Your task to perform on an android device: Open CNN.com Image 0: 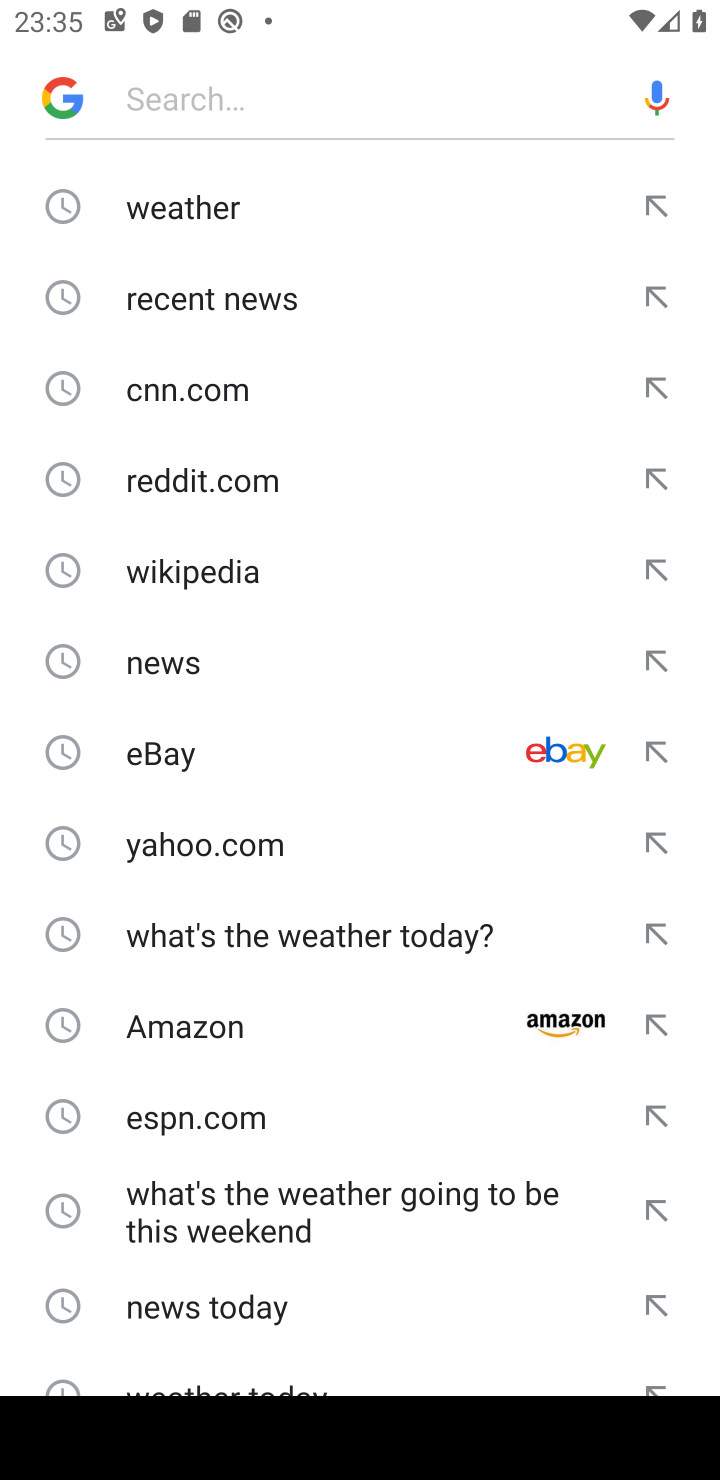
Step 0: press home button
Your task to perform on an android device: Open CNN.com Image 1: 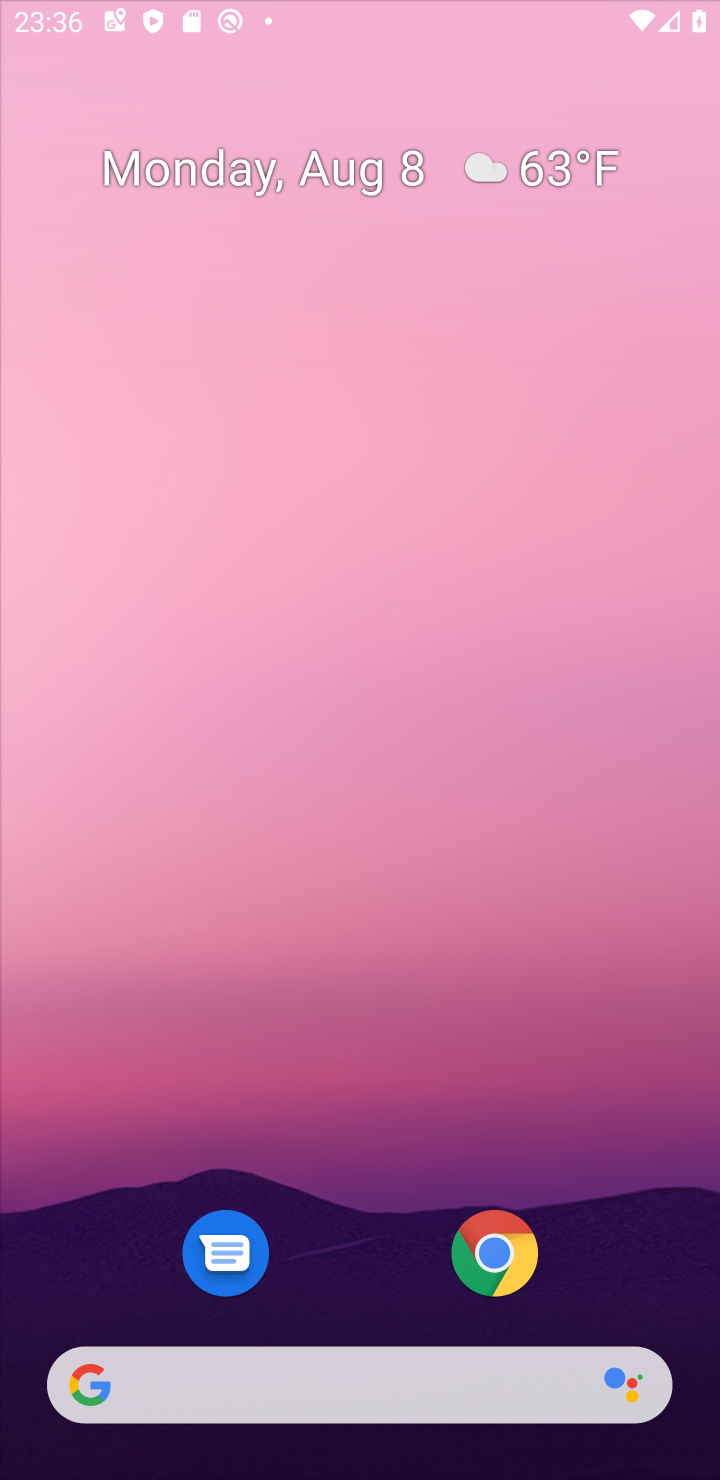
Step 1: drag from (394, 1283) to (376, 185)
Your task to perform on an android device: Open CNN.com Image 2: 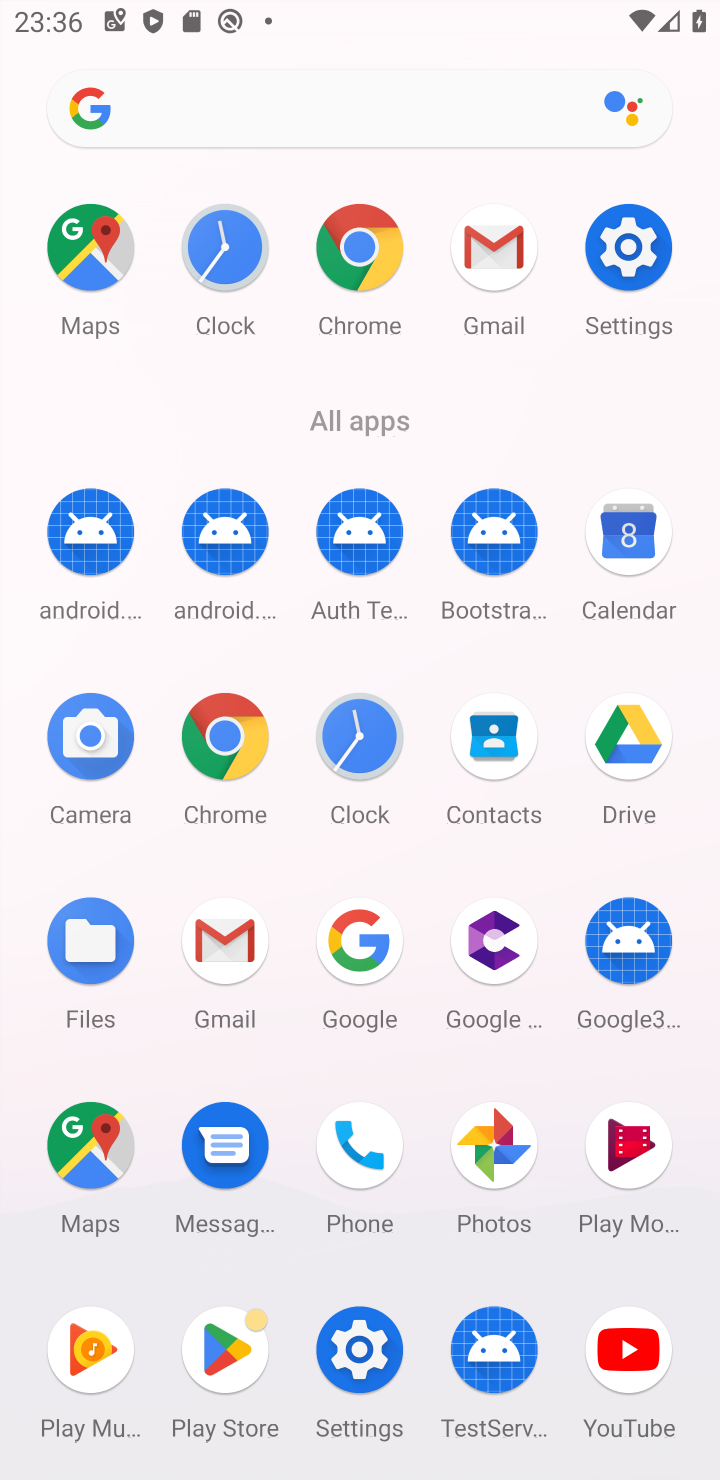
Step 2: click (380, 233)
Your task to perform on an android device: Open CNN.com Image 3: 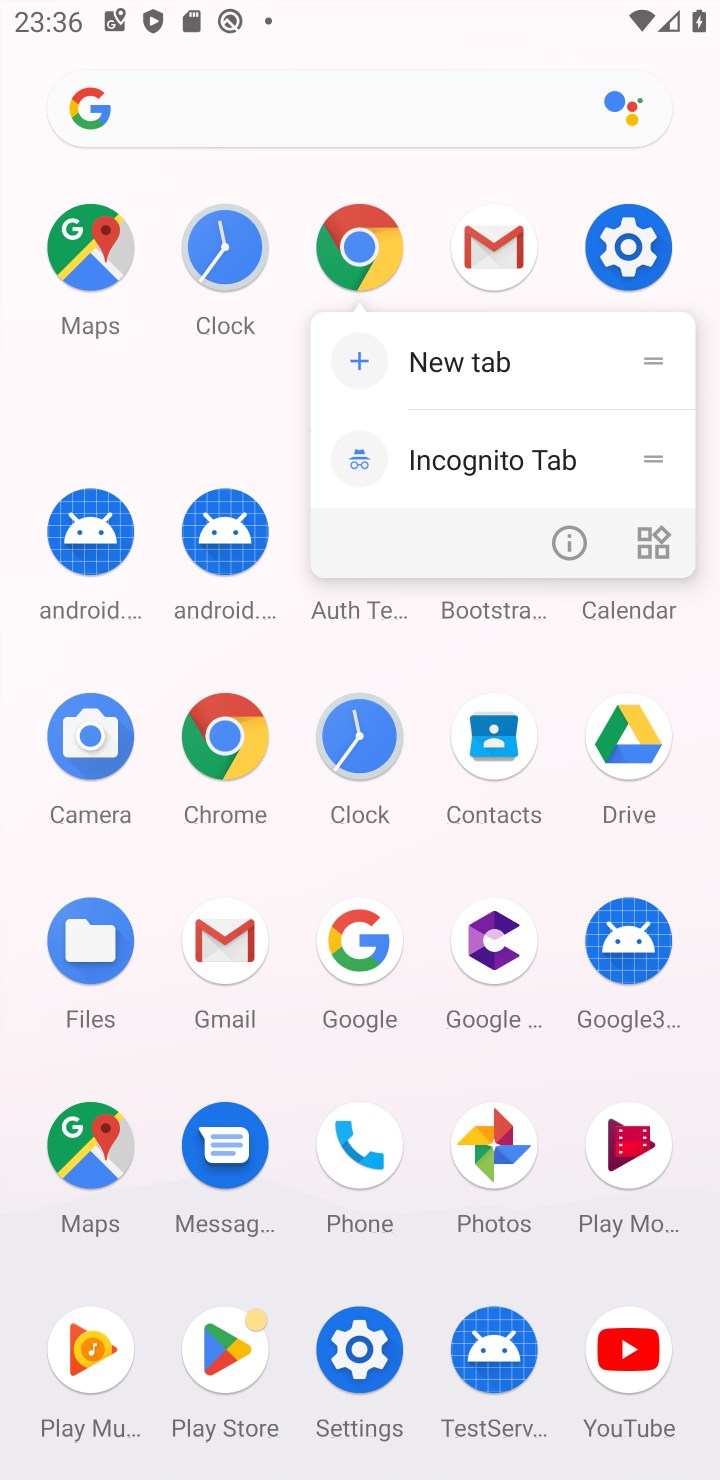
Step 3: click (380, 237)
Your task to perform on an android device: Open CNN.com Image 4: 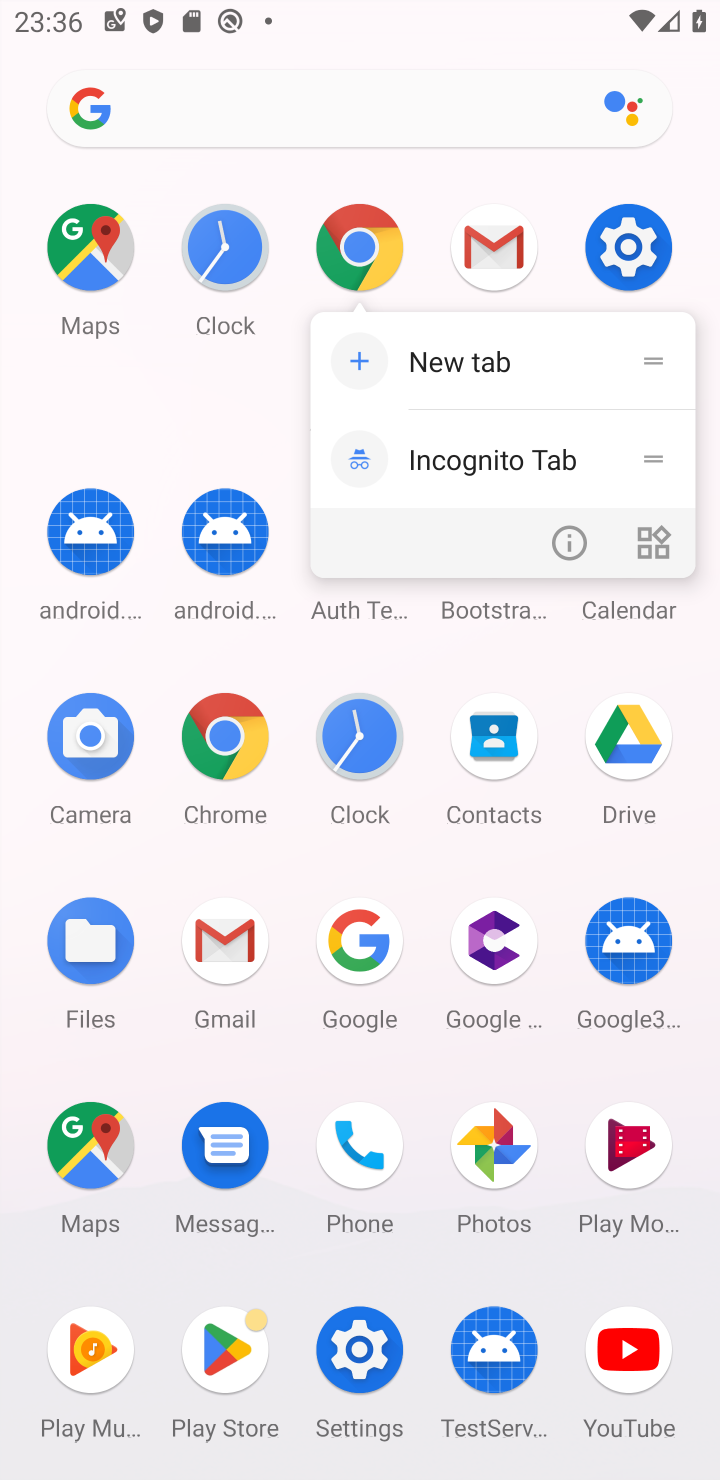
Step 4: click (357, 237)
Your task to perform on an android device: Open CNN.com Image 5: 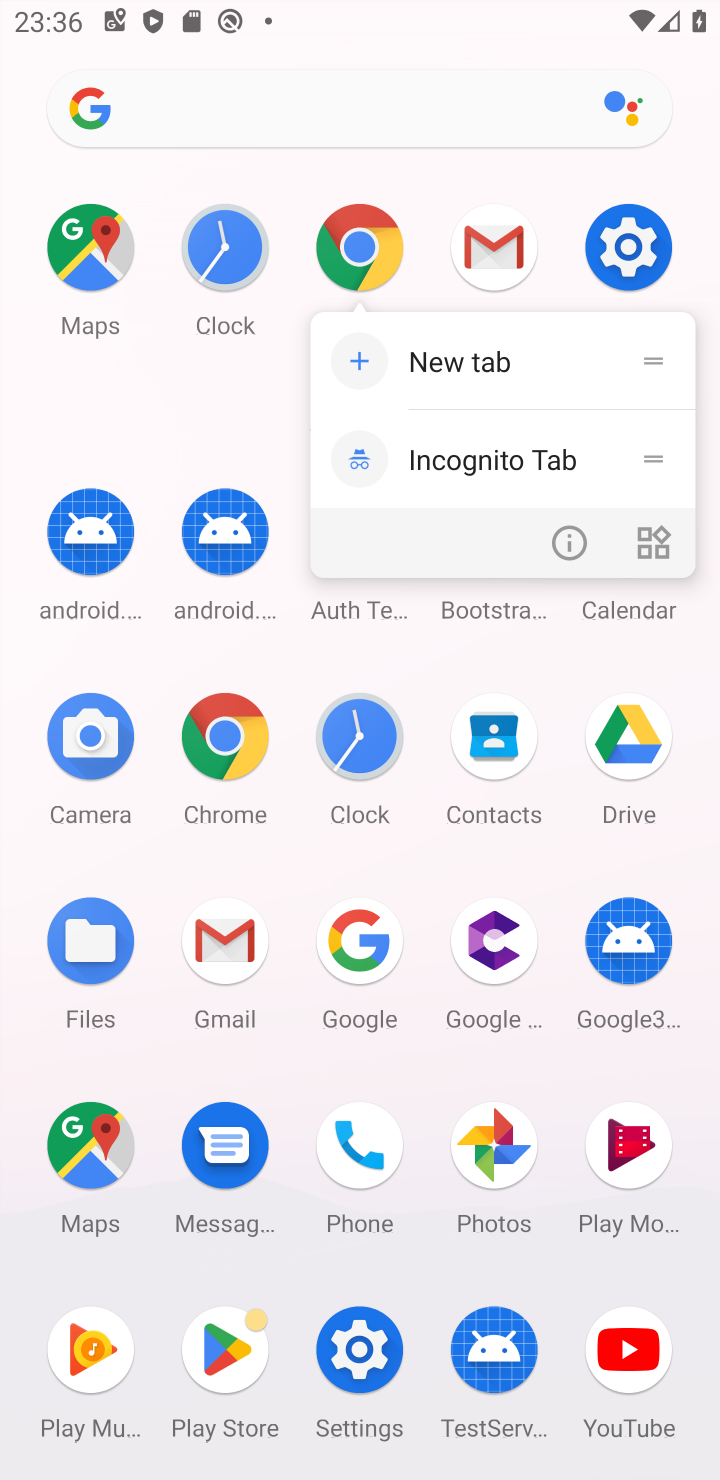
Step 5: click (357, 237)
Your task to perform on an android device: Open CNN.com Image 6: 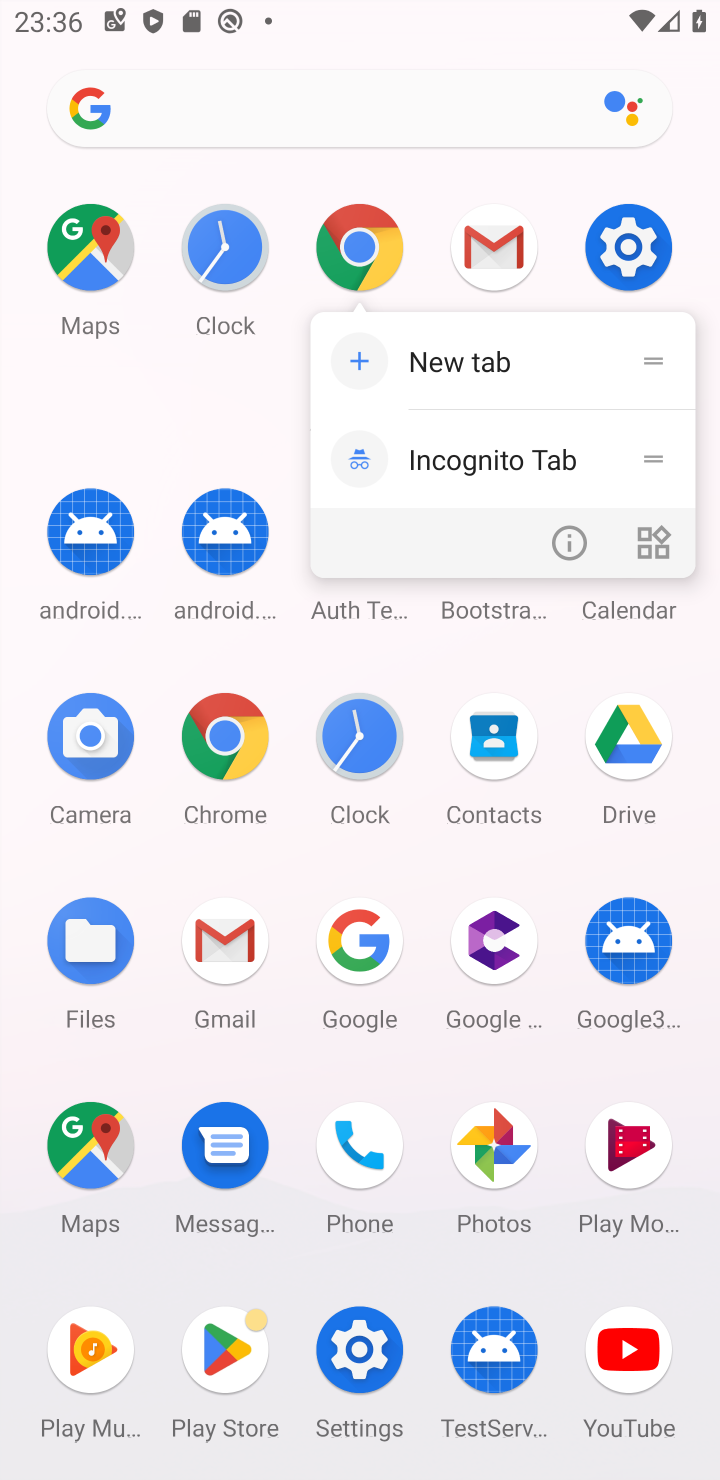
Step 6: click (357, 238)
Your task to perform on an android device: Open CNN.com Image 7: 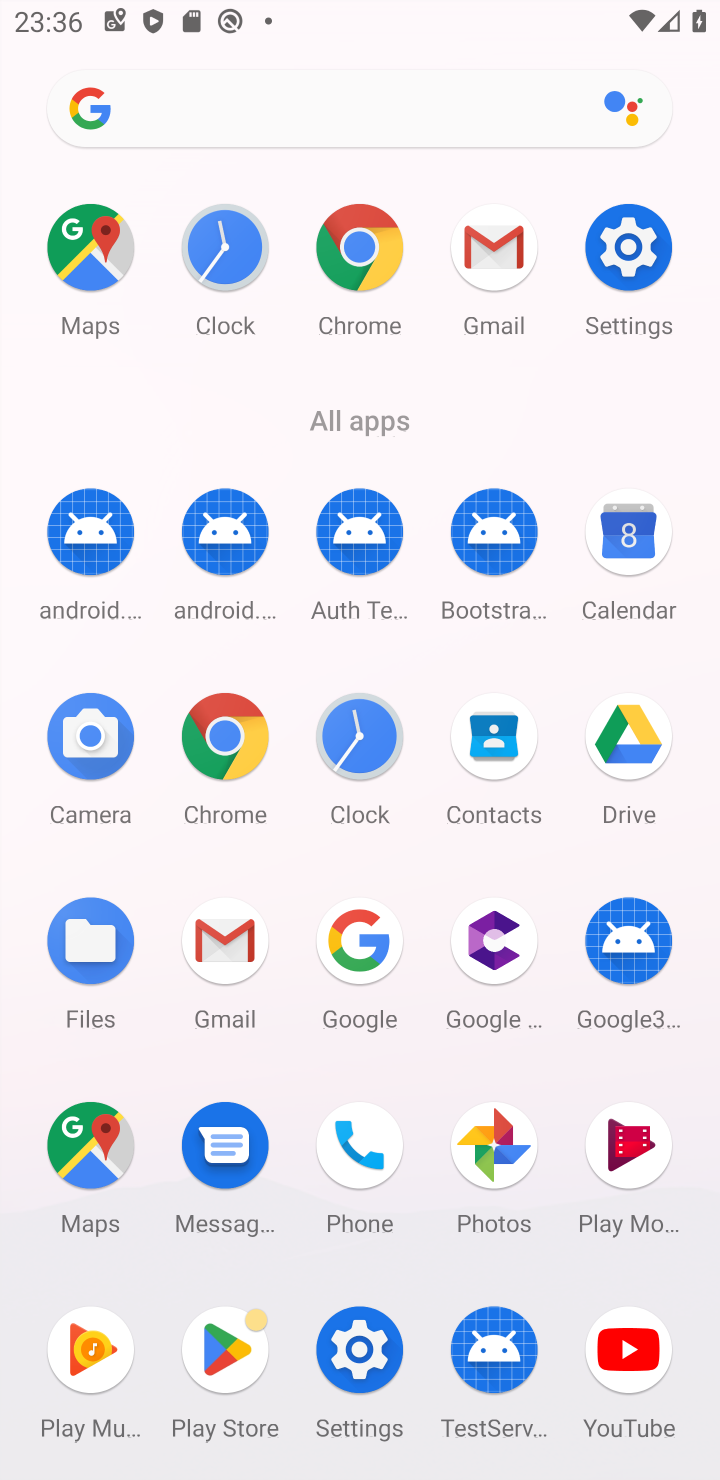
Step 7: click (365, 264)
Your task to perform on an android device: Open CNN.com Image 8: 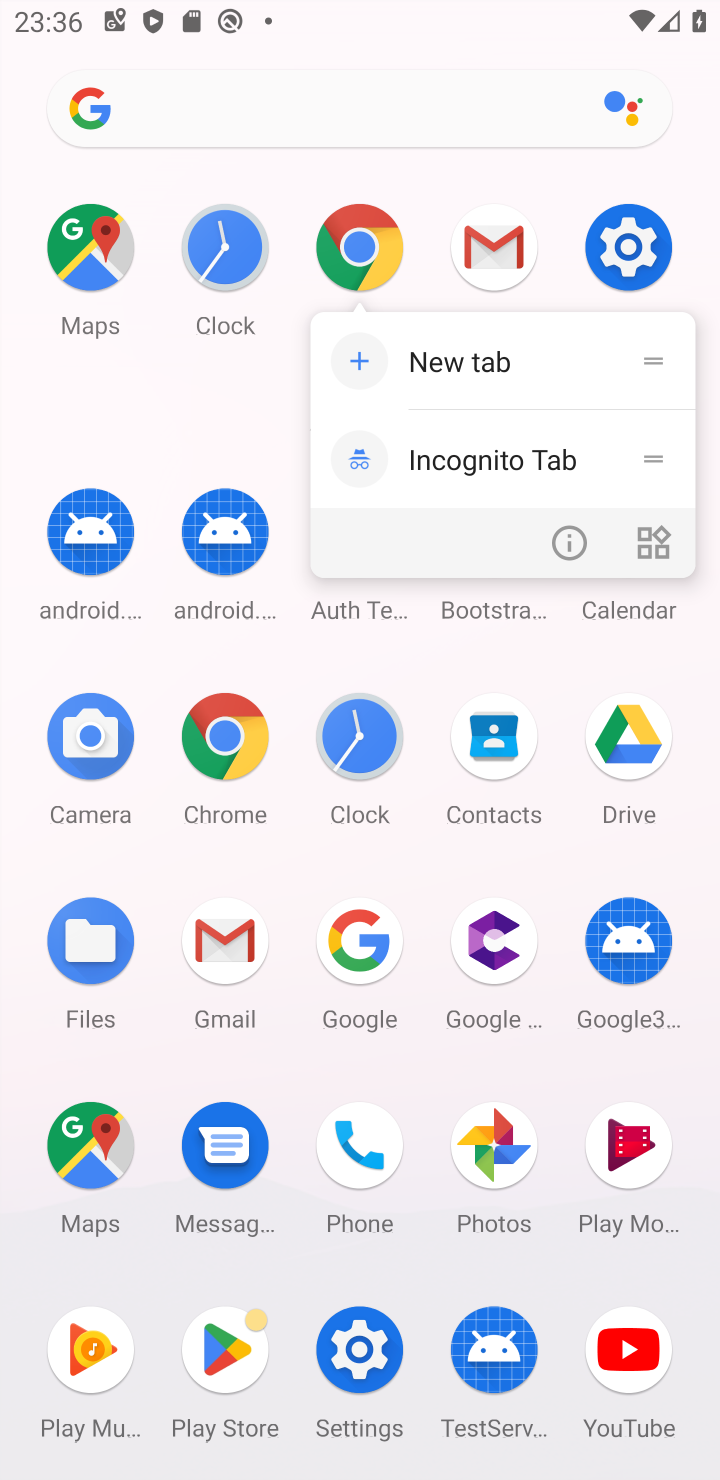
Step 8: click (365, 264)
Your task to perform on an android device: Open CNN.com Image 9: 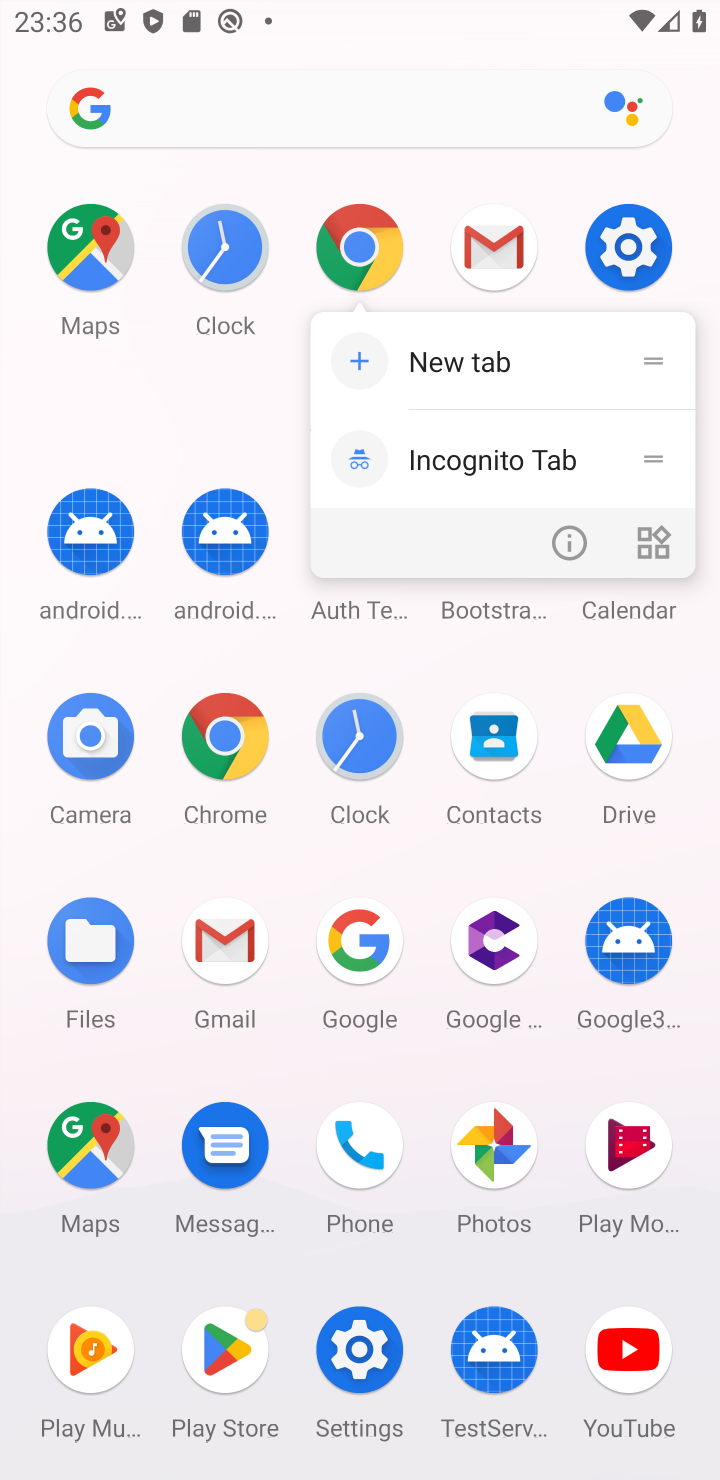
Step 9: click (365, 264)
Your task to perform on an android device: Open CNN.com Image 10: 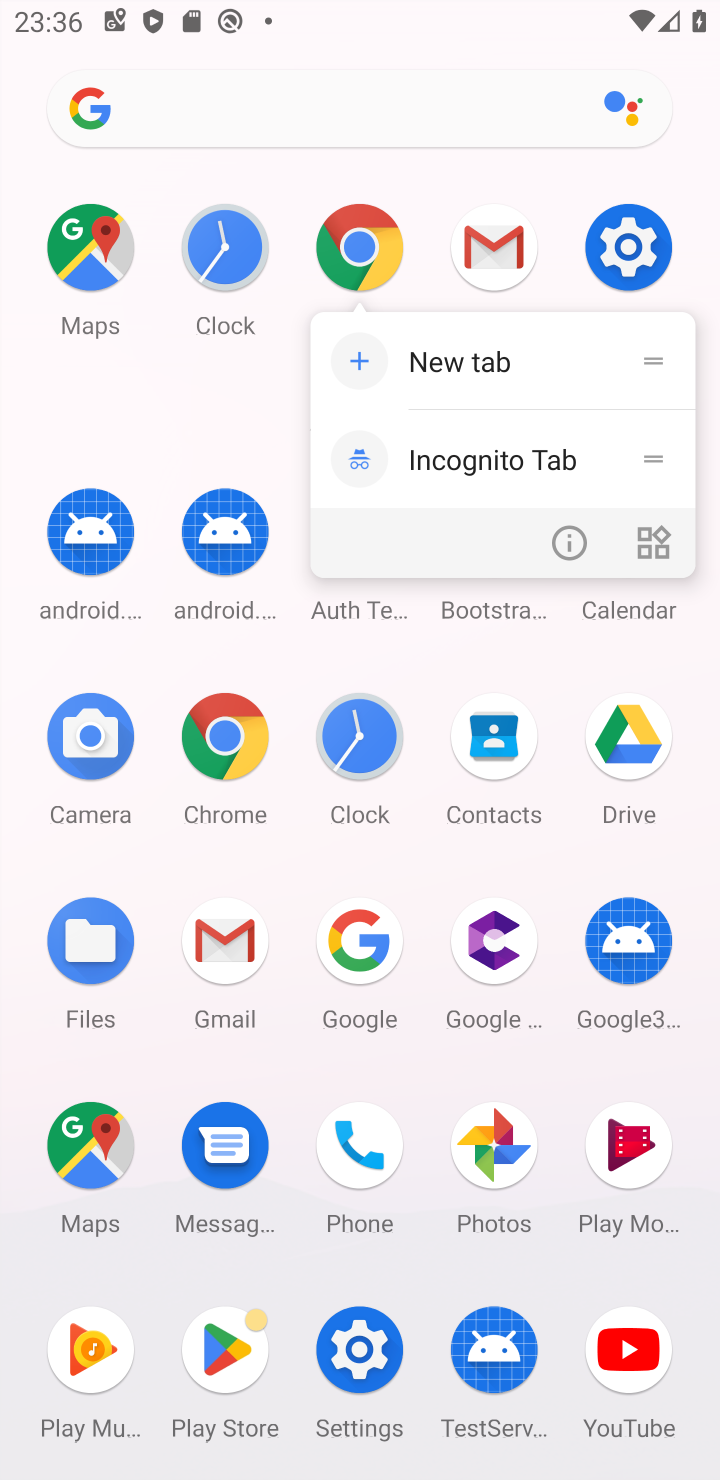
Step 10: click (225, 749)
Your task to perform on an android device: Open CNN.com Image 11: 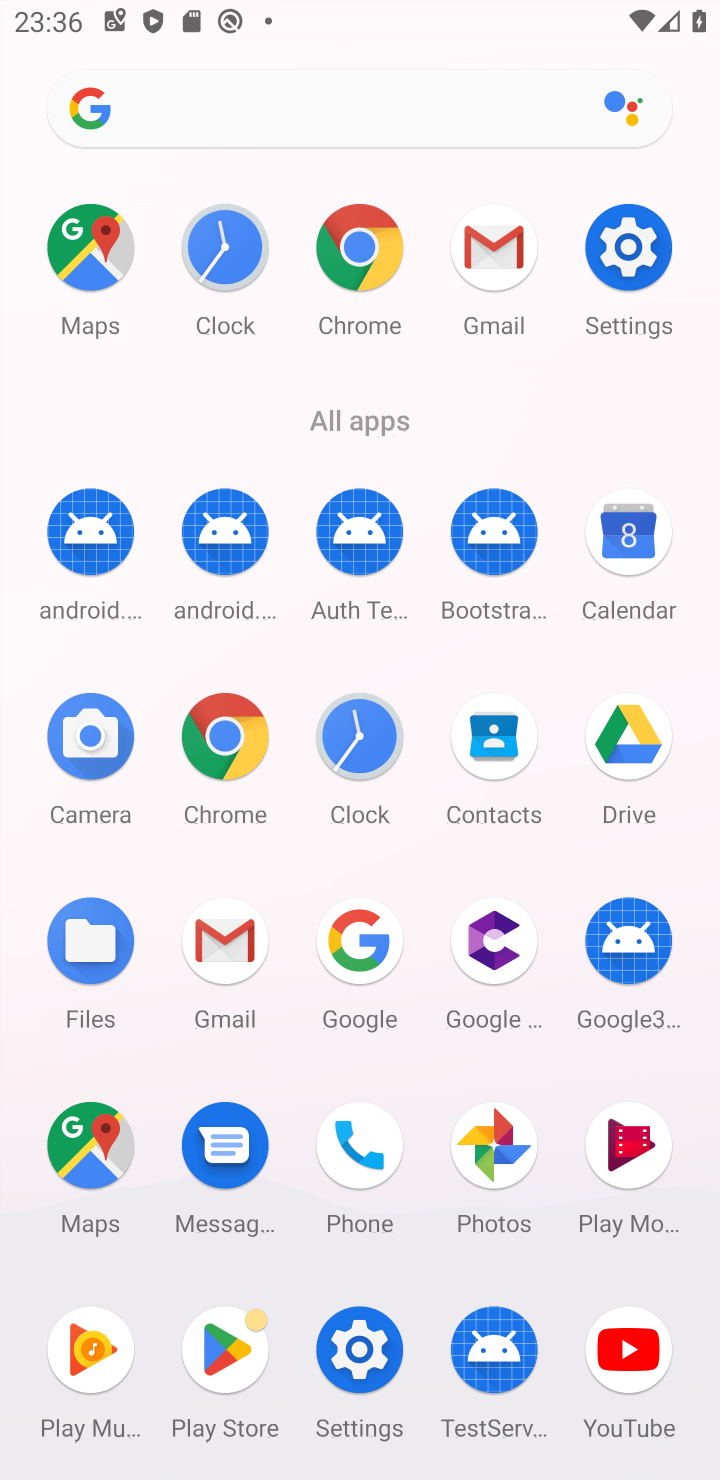
Step 11: click (247, 730)
Your task to perform on an android device: Open CNN.com Image 12: 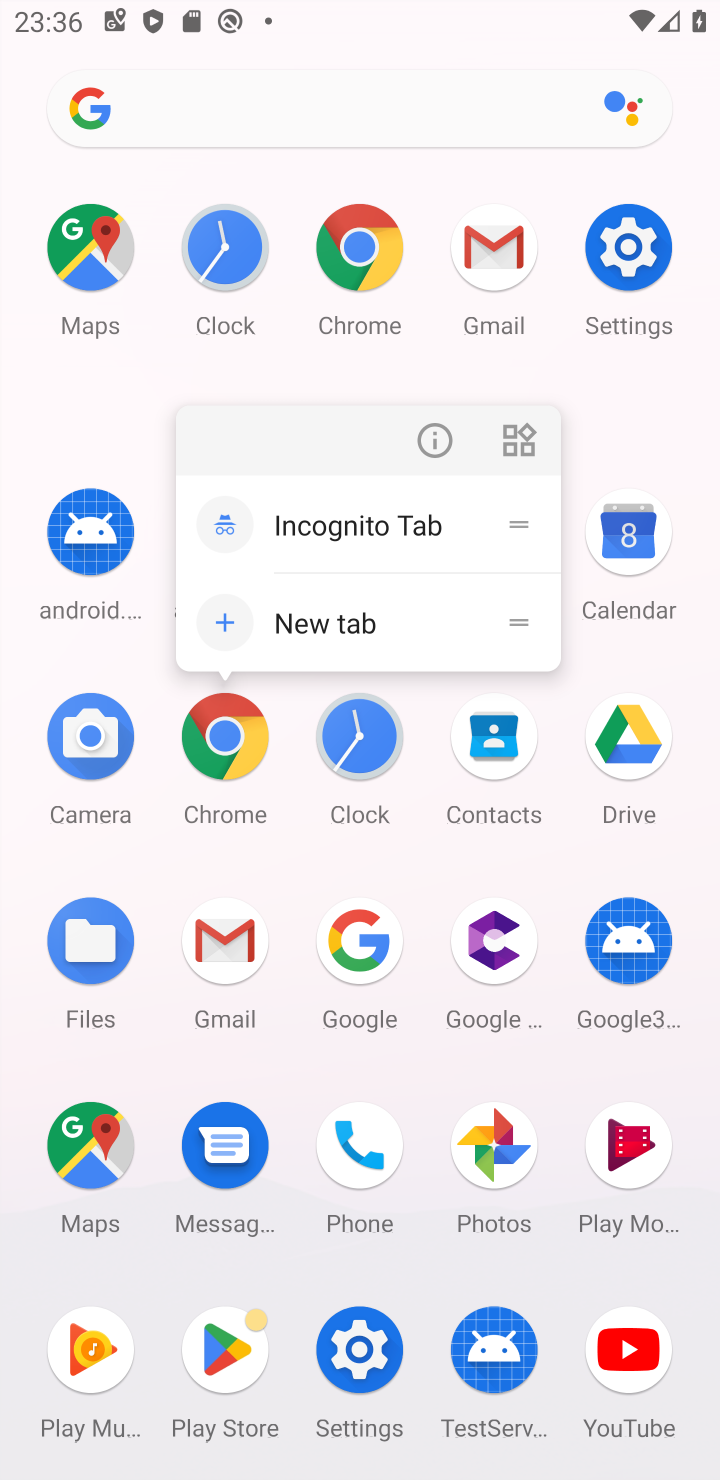
Step 12: click (247, 730)
Your task to perform on an android device: Open CNN.com Image 13: 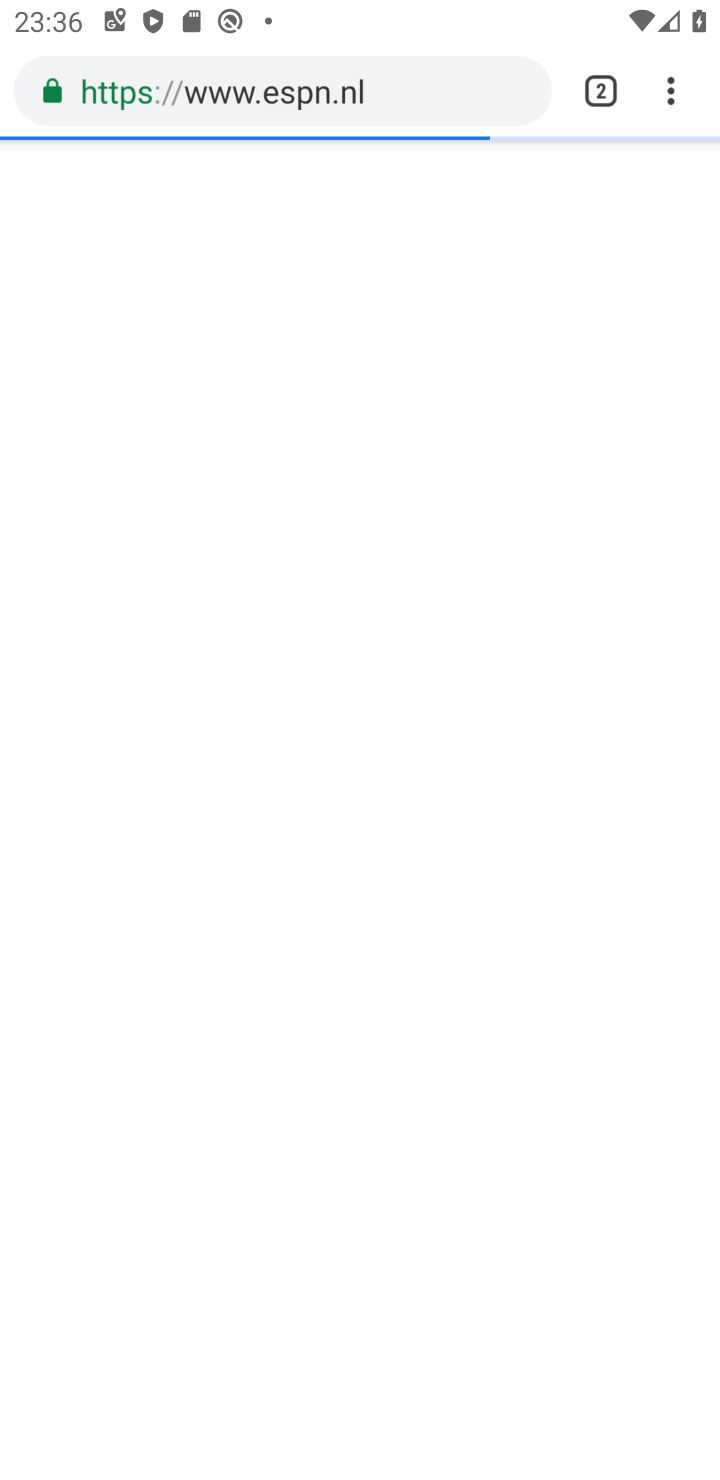
Step 13: click (247, 730)
Your task to perform on an android device: Open CNN.com Image 14: 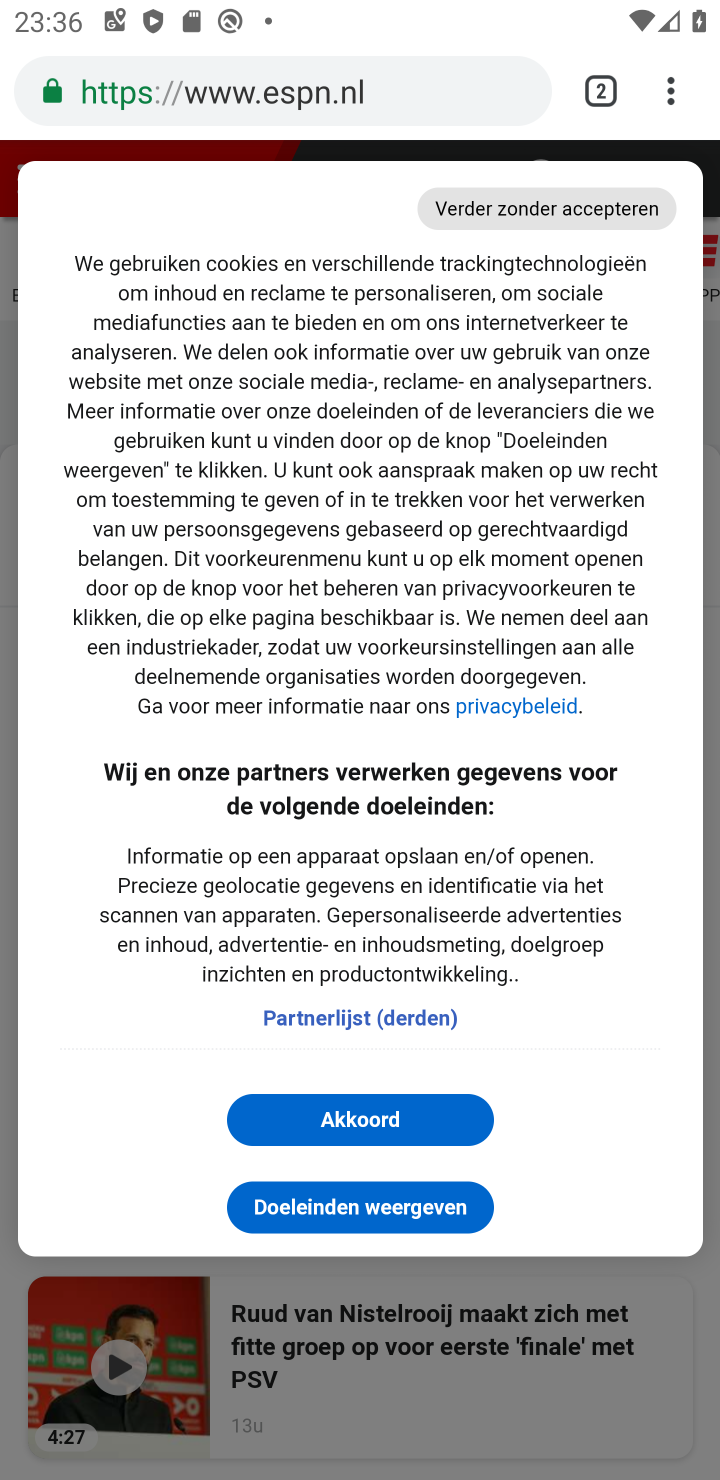
Step 14: click (418, 1095)
Your task to perform on an android device: Open CNN.com Image 15: 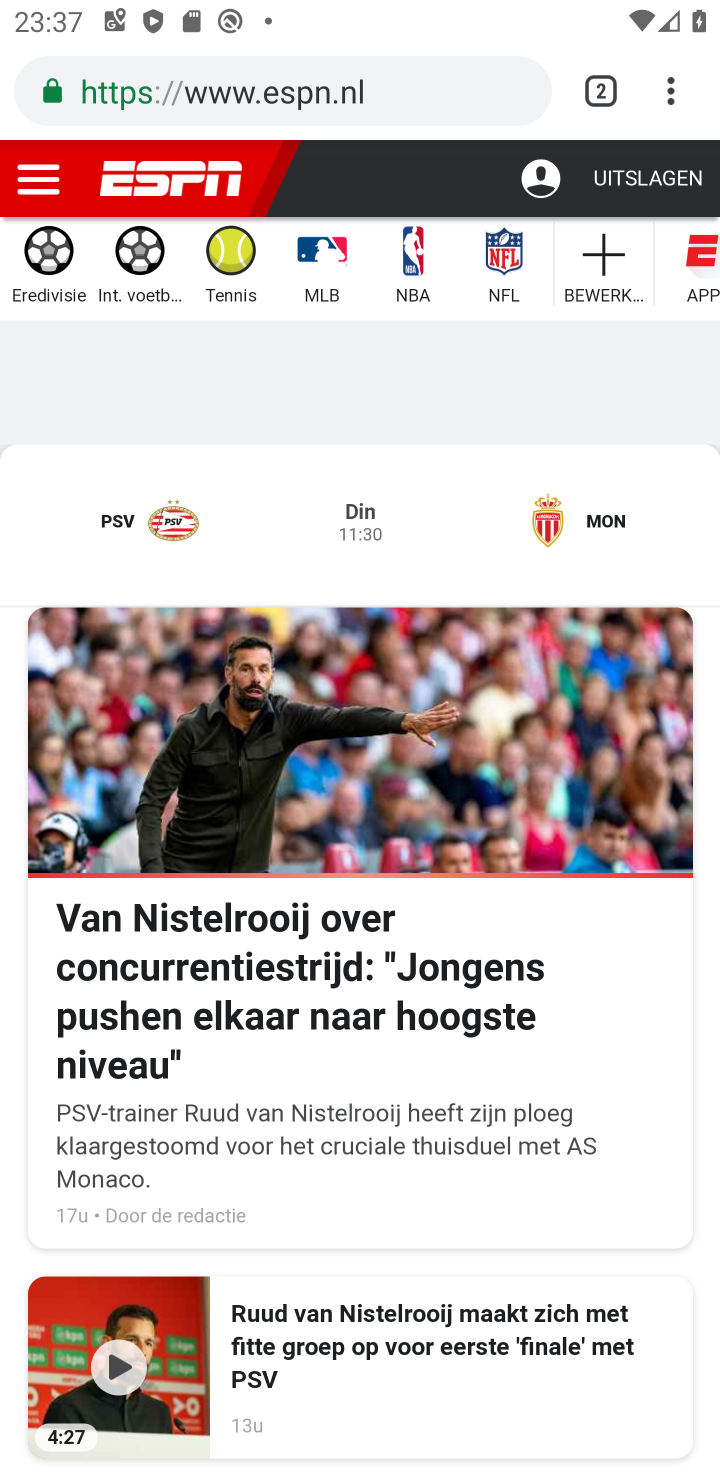
Step 15: click (691, 94)
Your task to perform on an android device: Open CNN.com Image 16: 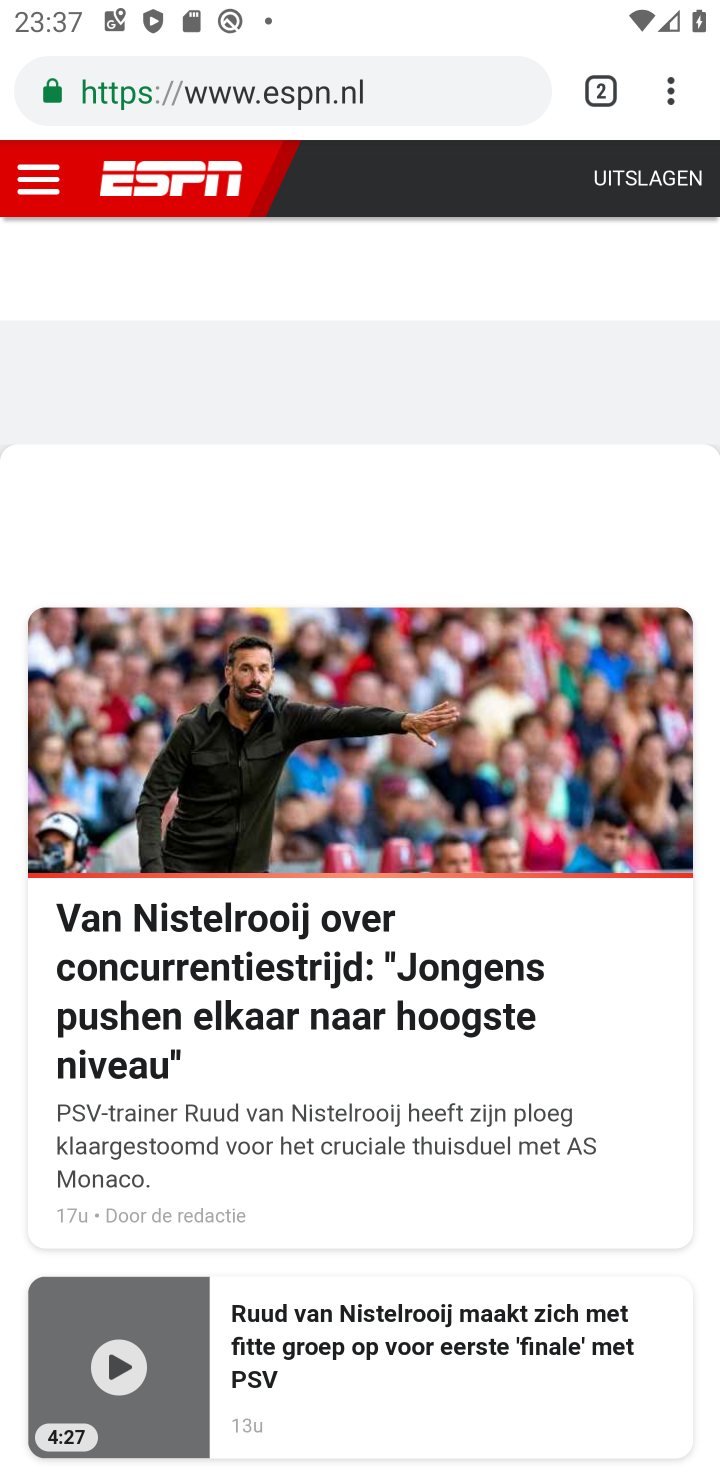
Step 16: click (673, 91)
Your task to perform on an android device: Open CNN.com Image 17: 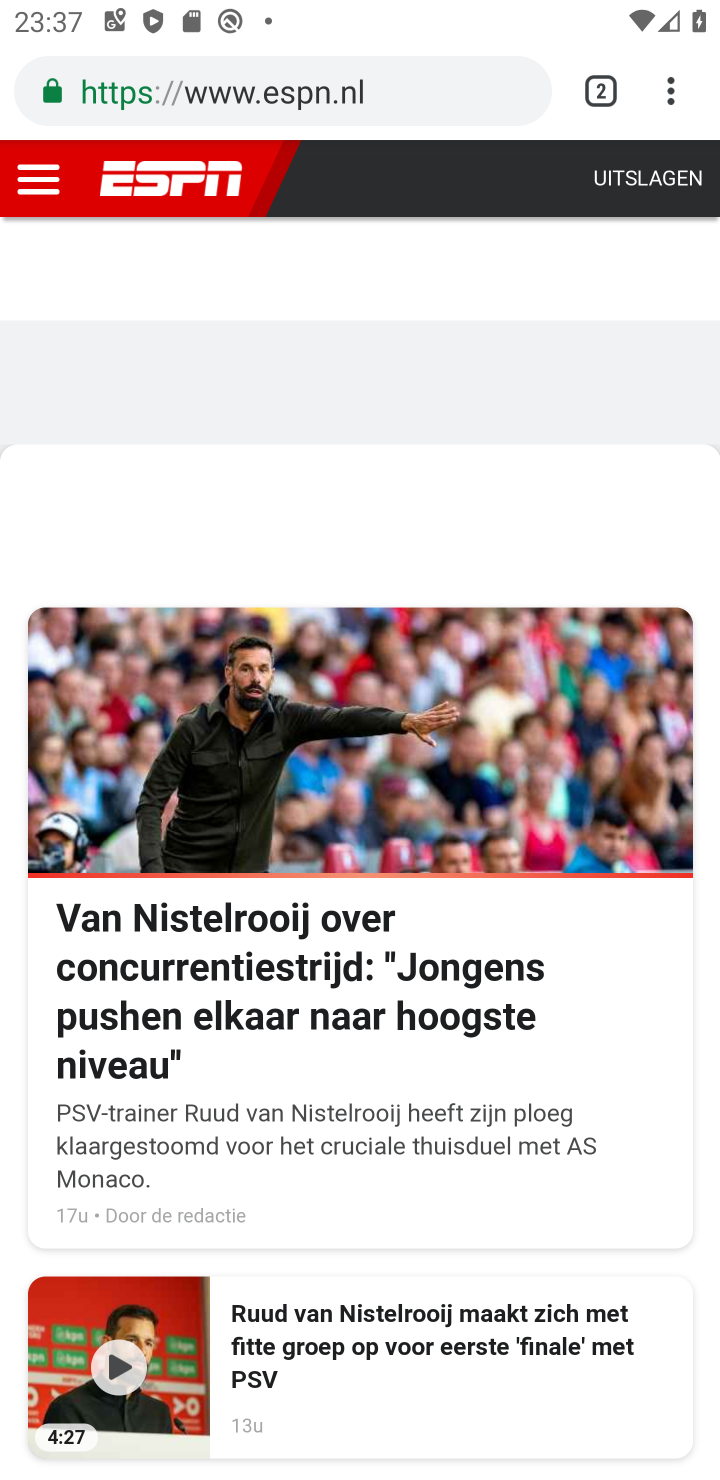
Step 17: click (691, 56)
Your task to perform on an android device: Open CNN.com Image 18: 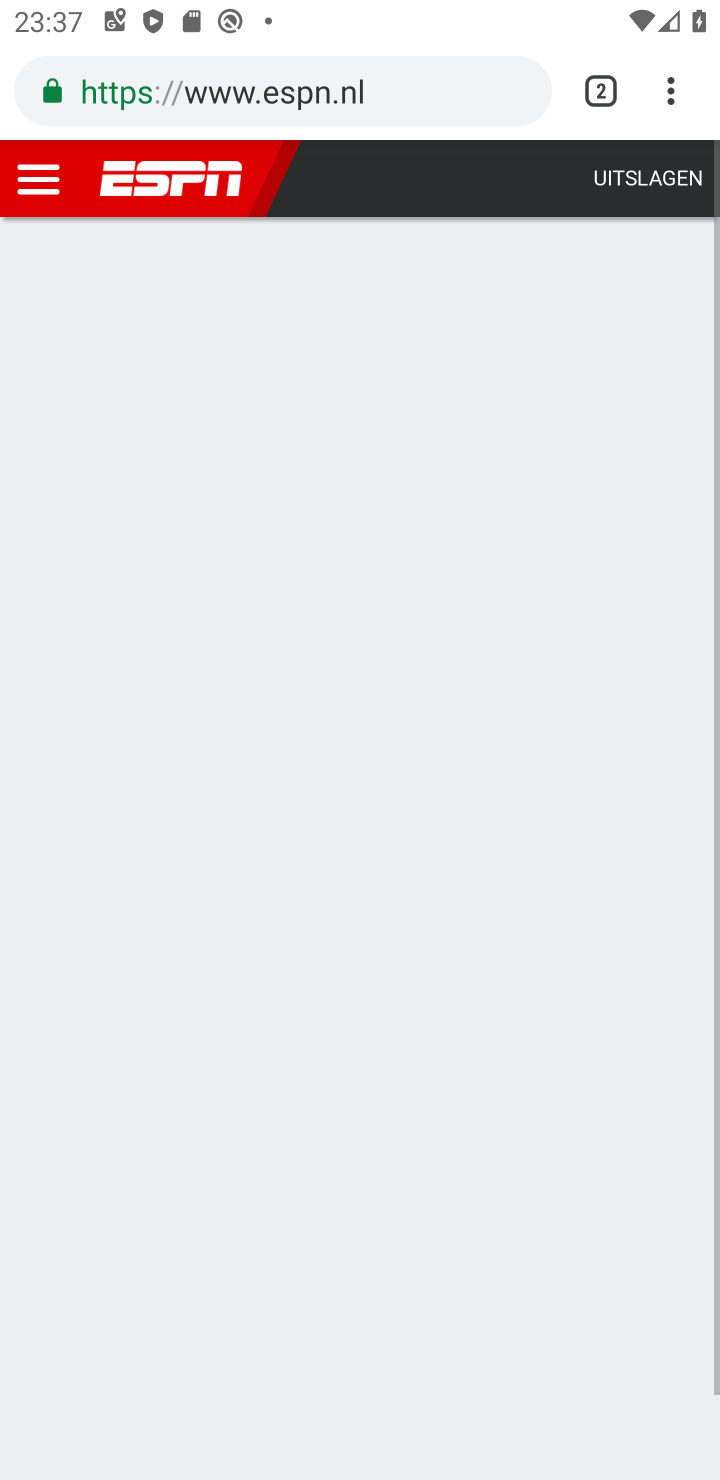
Step 18: click (667, 87)
Your task to perform on an android device: Open CNN.com Image 19: 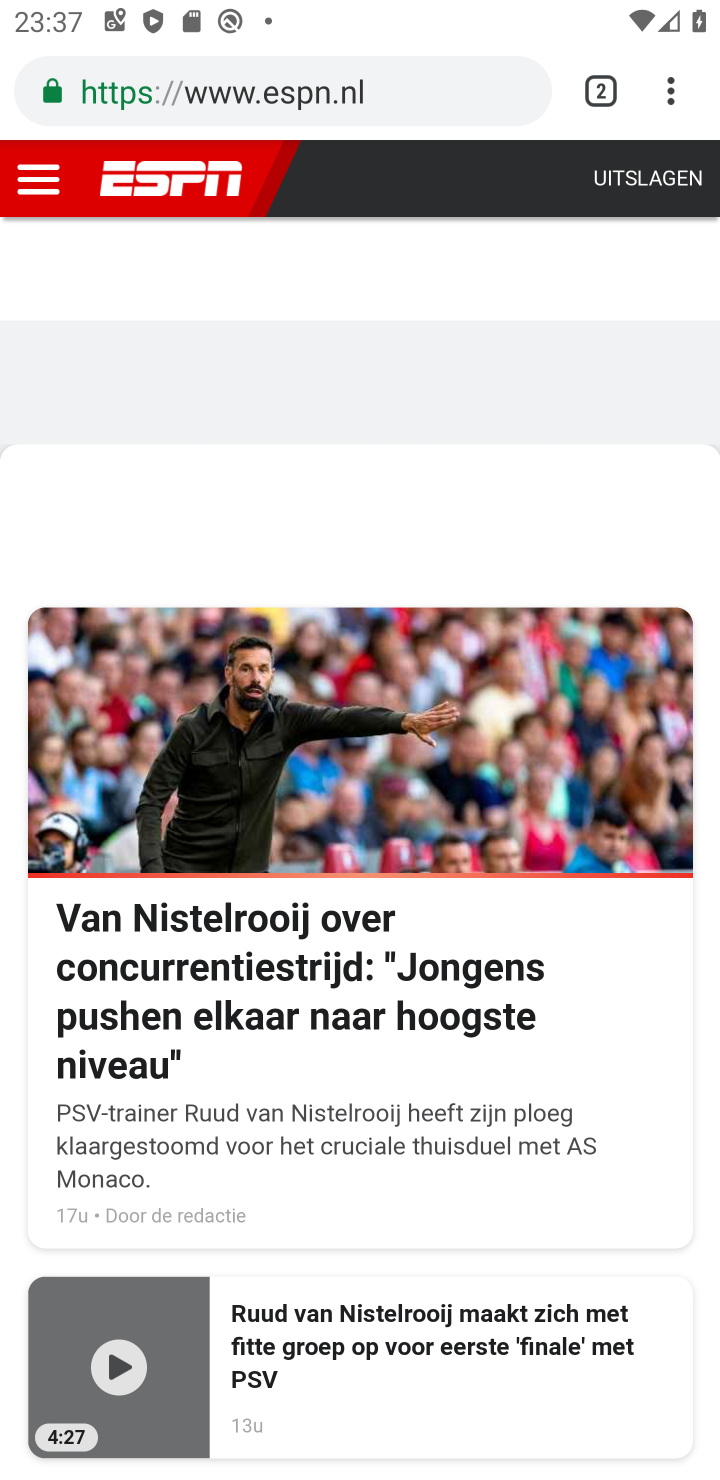
Step 19: click (667, 87)
Your task to perform on an android device: Open CNN.com Image 20: 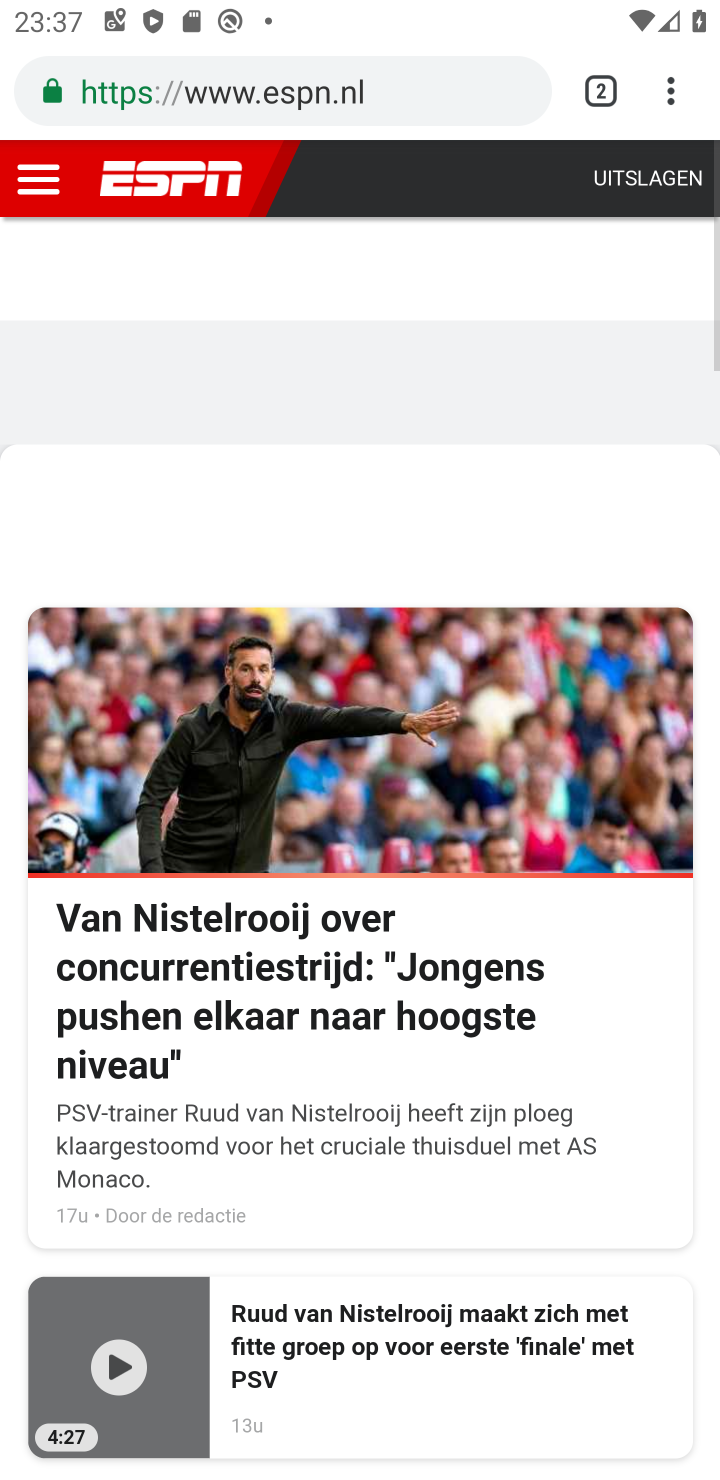
Step 20: click (657, 93)
Your task to perform on an android device: Open CNN.com Image 21: 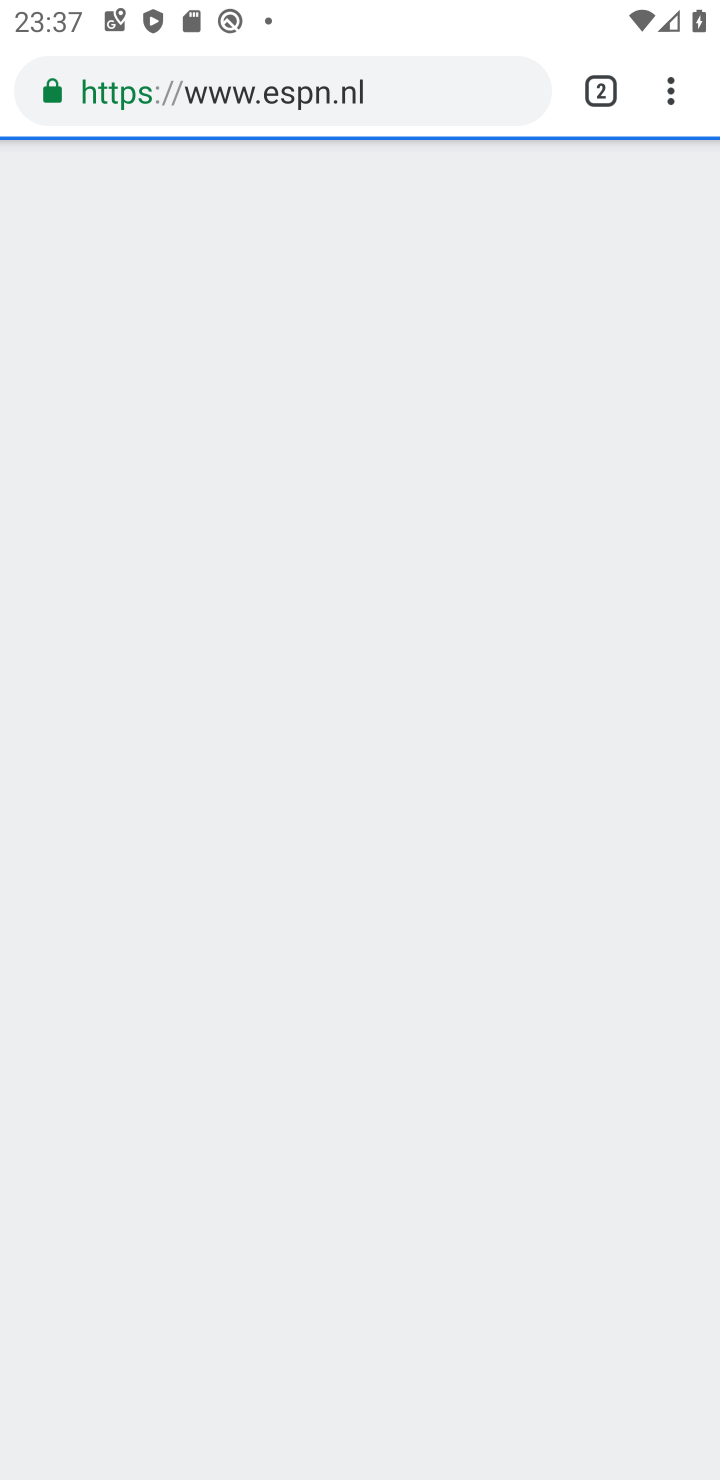
Step 21: click (471, 193)
Your task to perform on an android device: Open CNN.com Image 22: 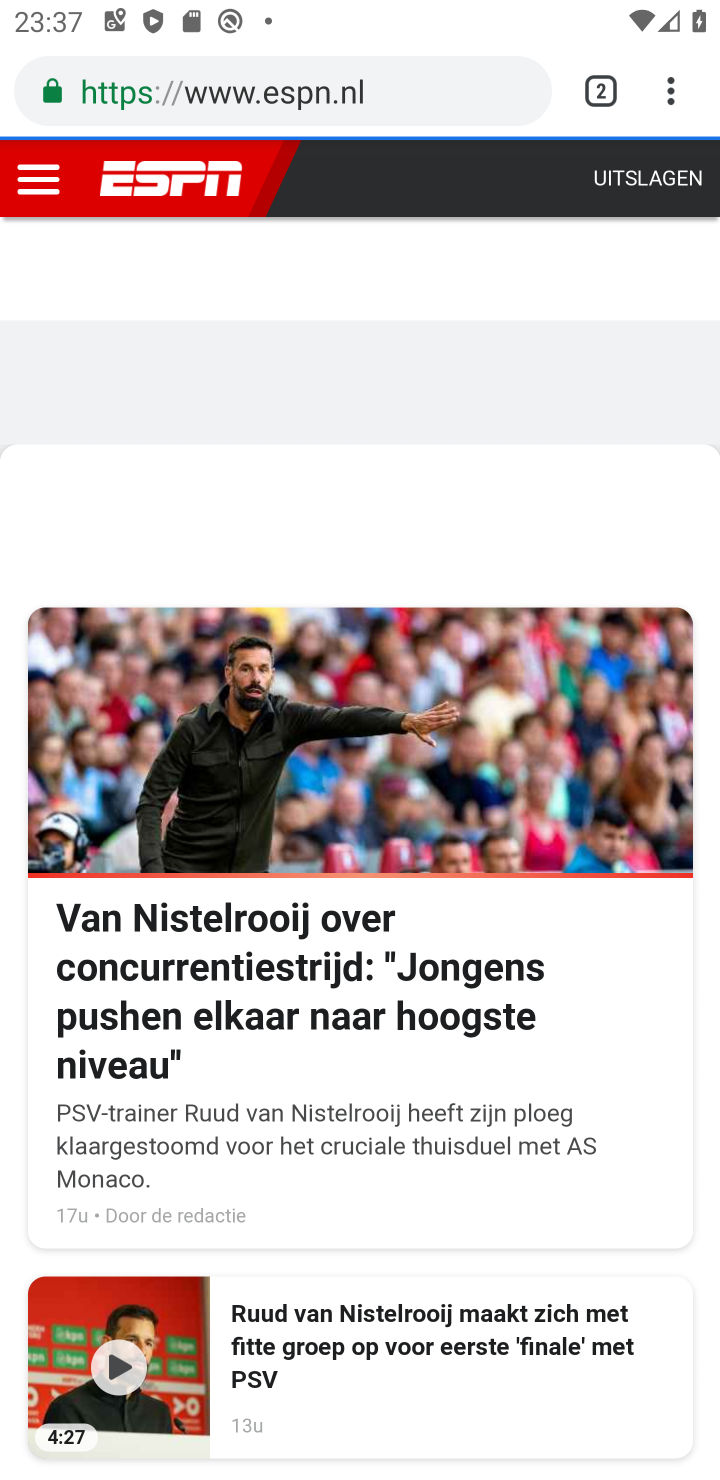
Step 22: click (626, 78)
Your task to perform on an android device: Open CNN.com Image 23: 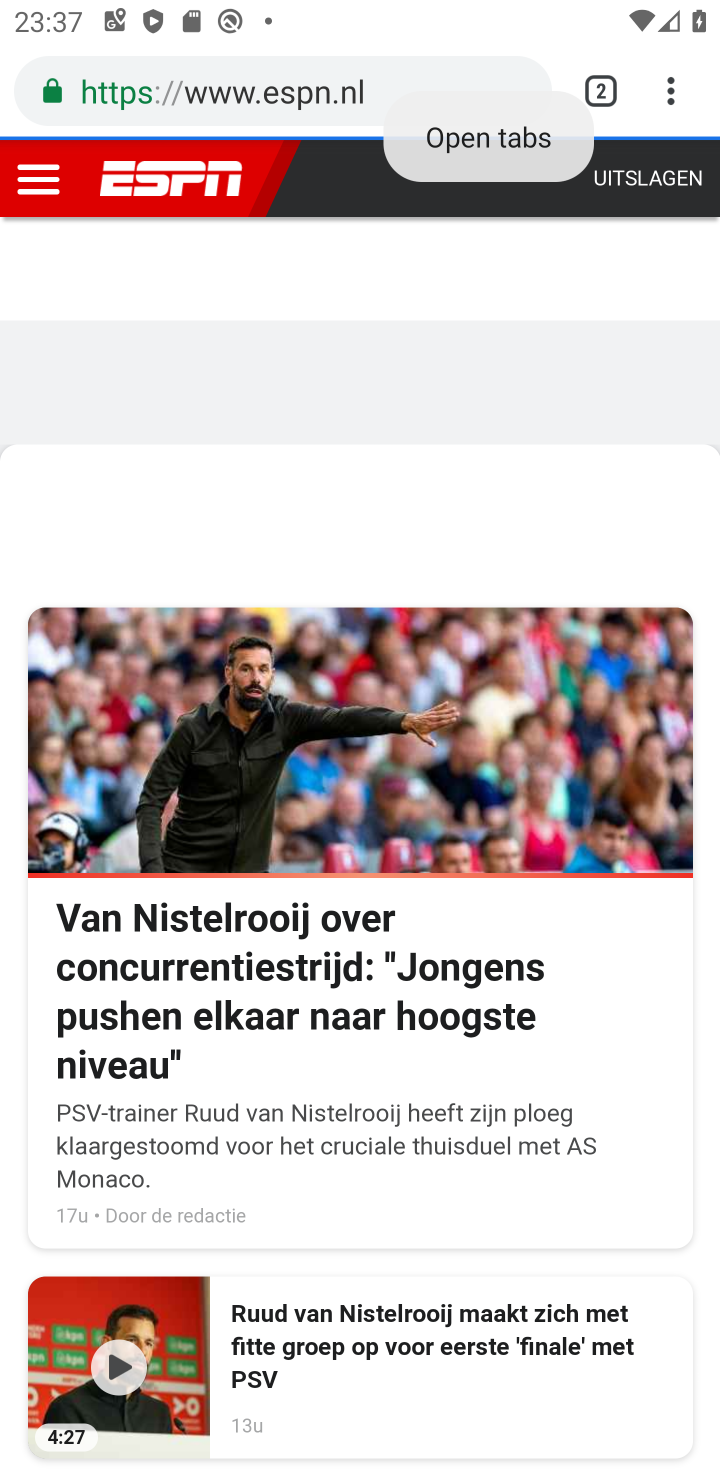
Step 23: click (625, 85)
Your task to perform on an android device: Open CNN.com Image 24: 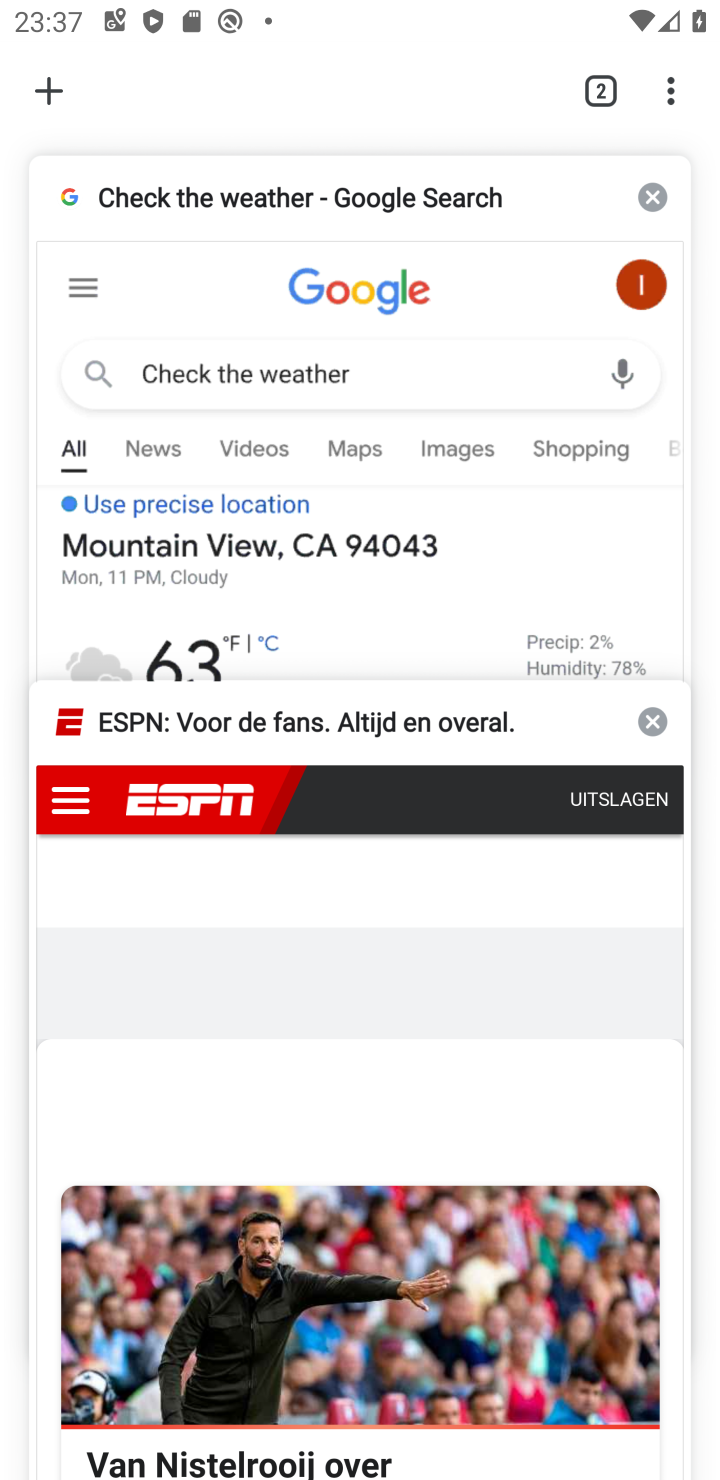
Step 24: click (70, 96)
Your task to perform on an android device: Open CNN.com Image 25: 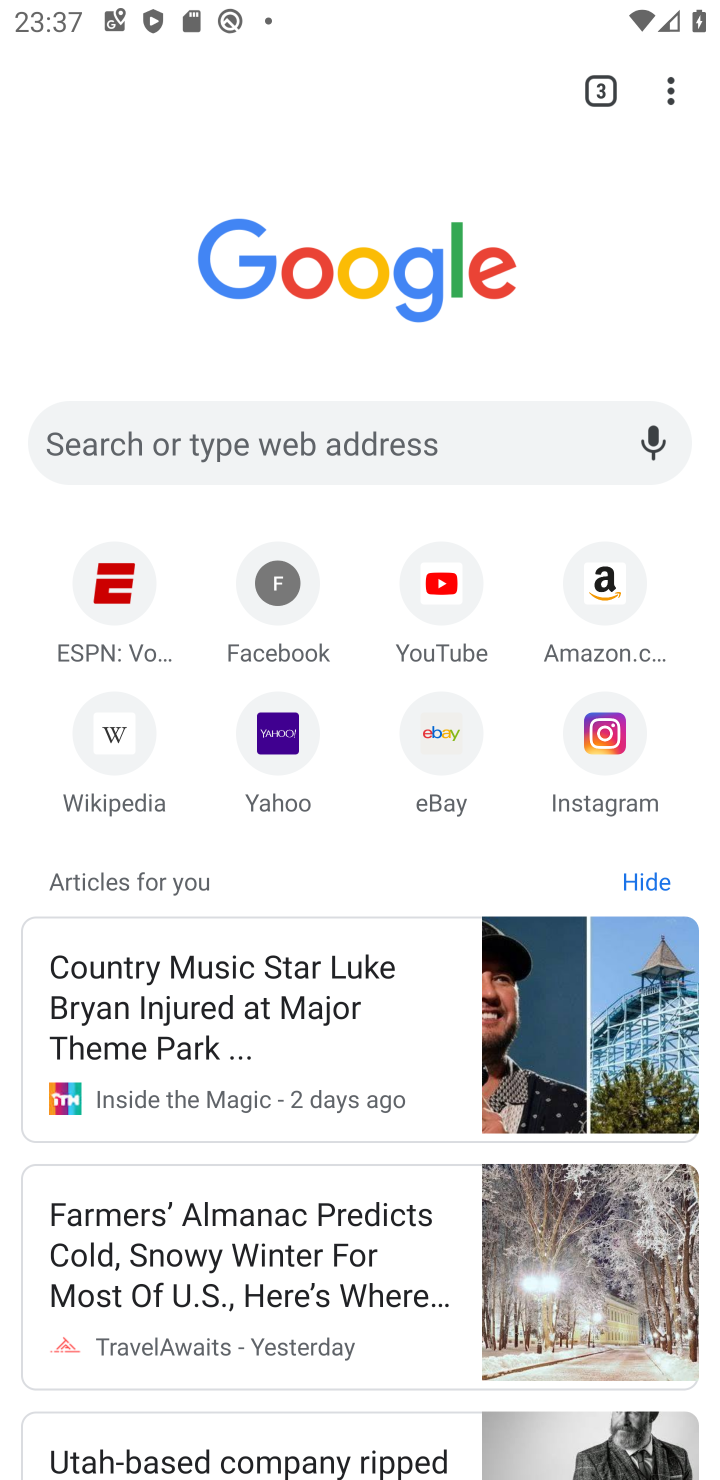
Step 25: click (386, 404)
Your task to perform on an android device: Open CNN.com Image 26: 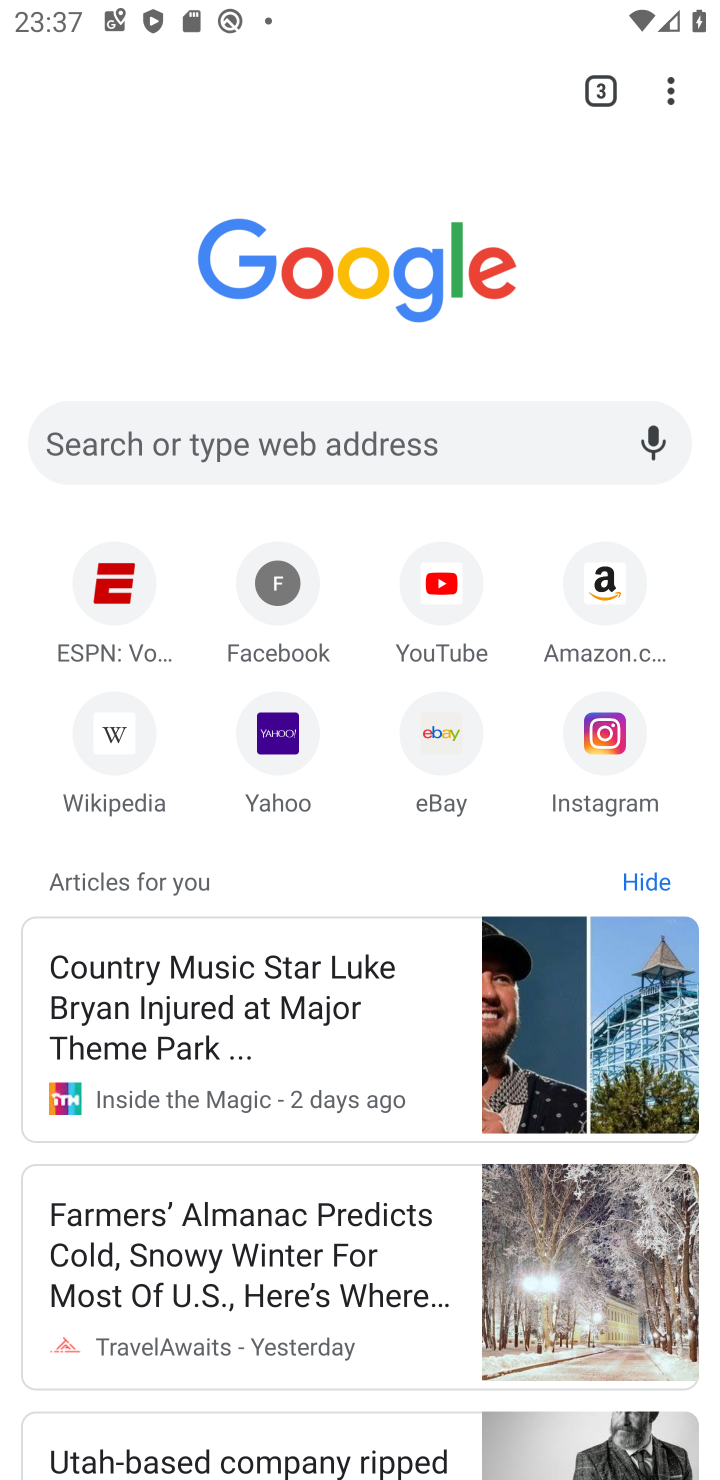
Step 26: click (398, 420)
Your task to perform on an android device: Open CNN.com Image 27: 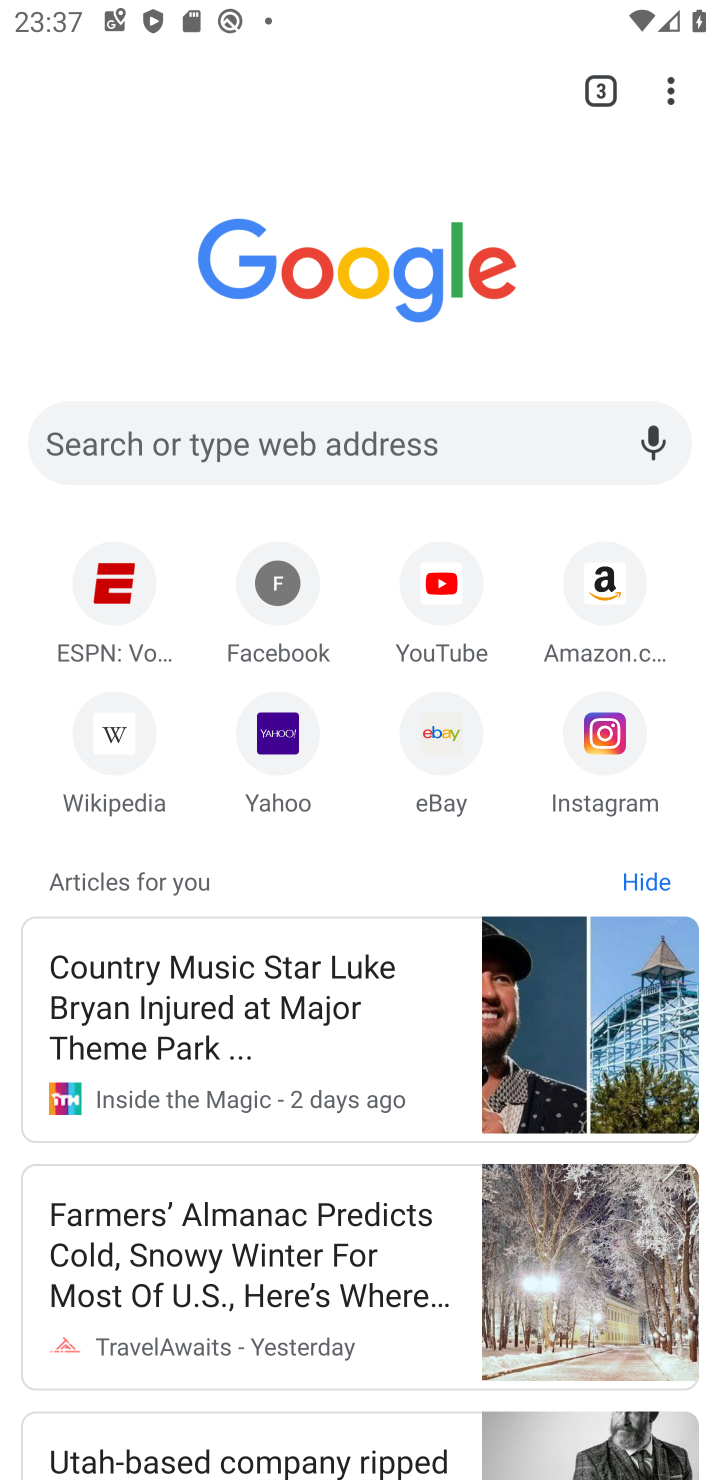
Step 27: type "CNN.com "
Your task to perform on an android device: Open CNN.com Image 28: 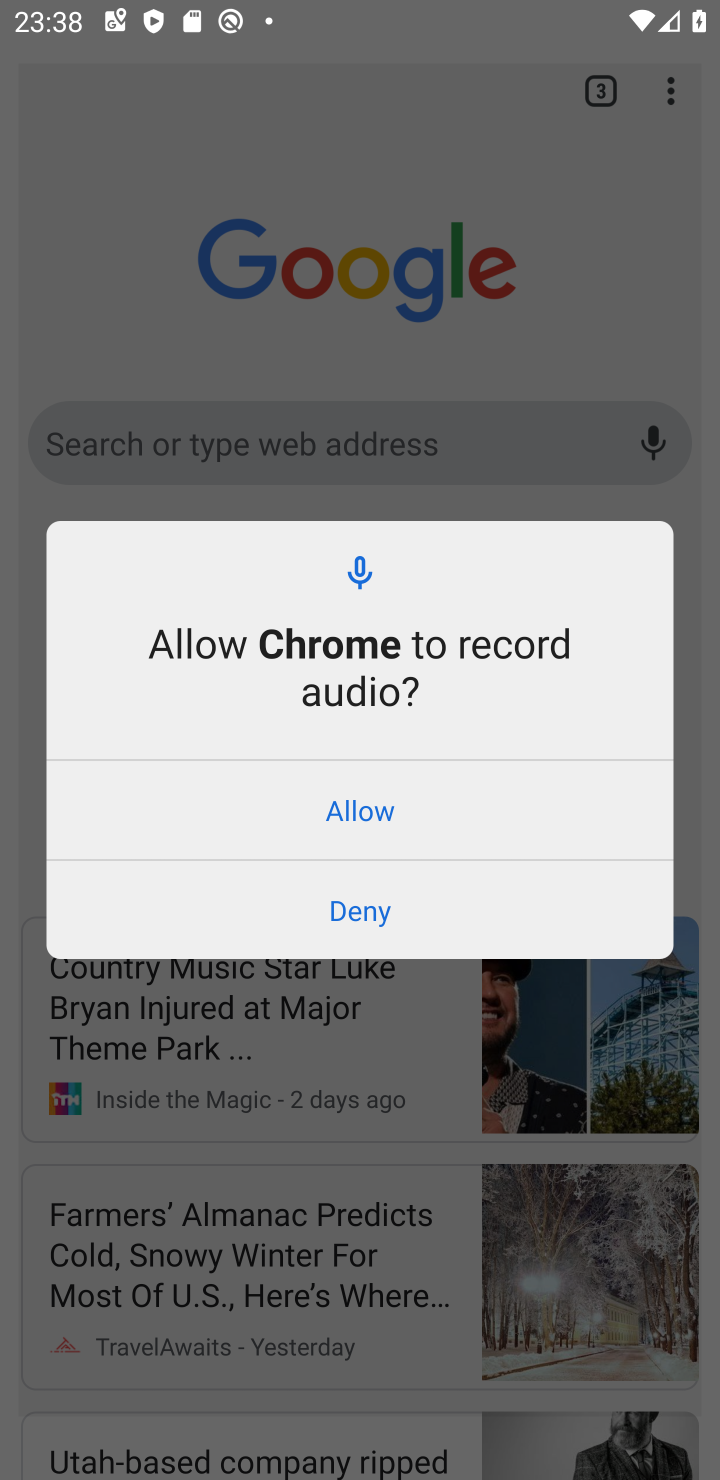
Step 28: click (650, 218)
Your task to perform on an android device: Open CNN.com Image 29: 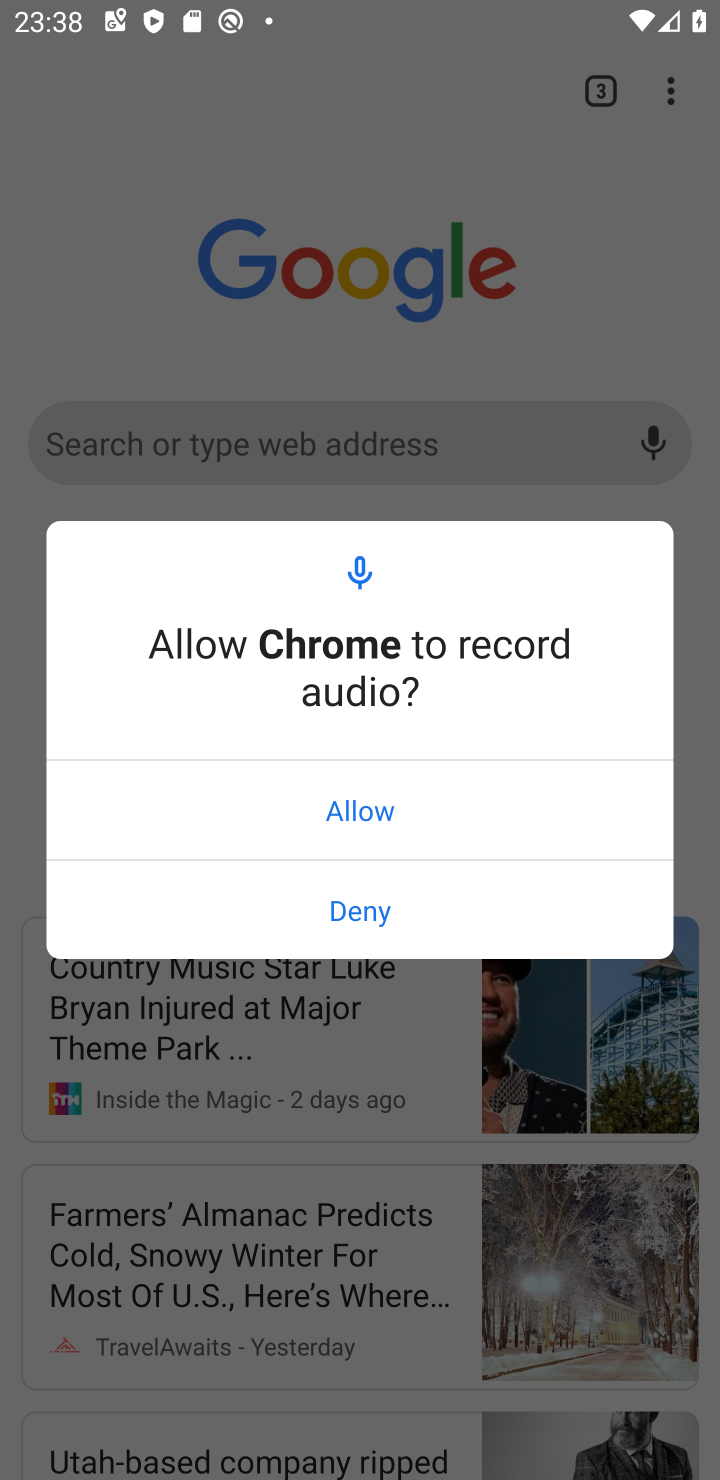
Step 29: click (380, 894)
Your task to perform on an android device: Open CNN.com Image 30: 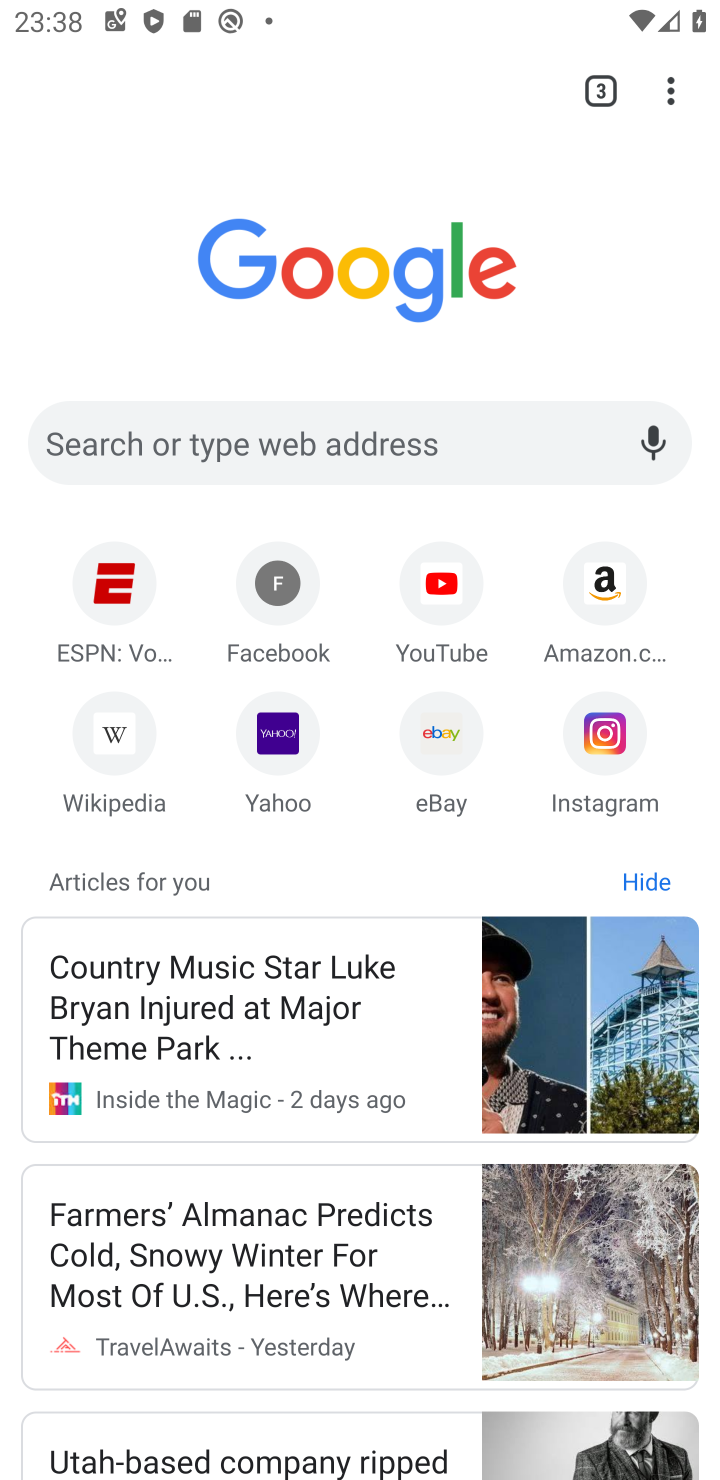
Step 30: click (446, 449)
Your task to perform on an android device: Open CNN.com Image 31: 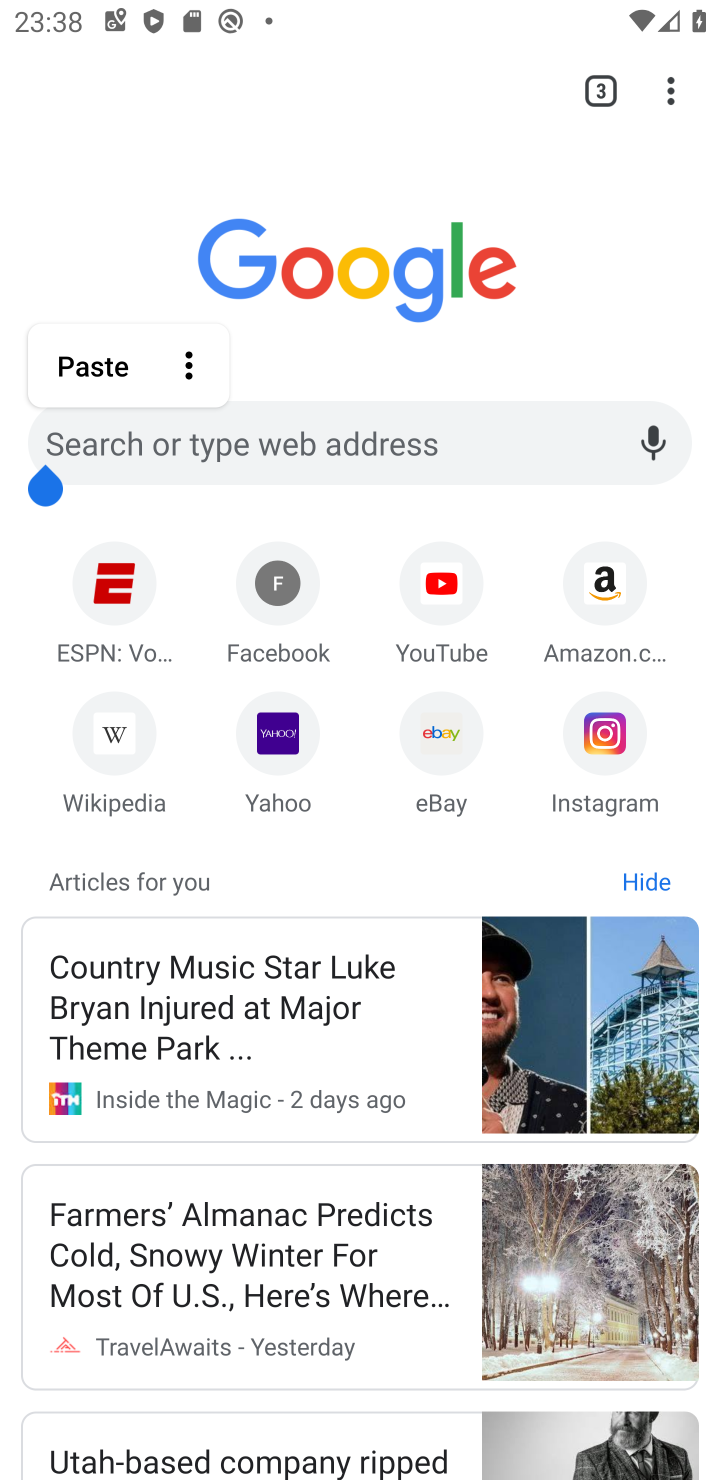
Step 31: type "CNN.com "
Your task to perform on an android device: Open CNN.com Image 32: 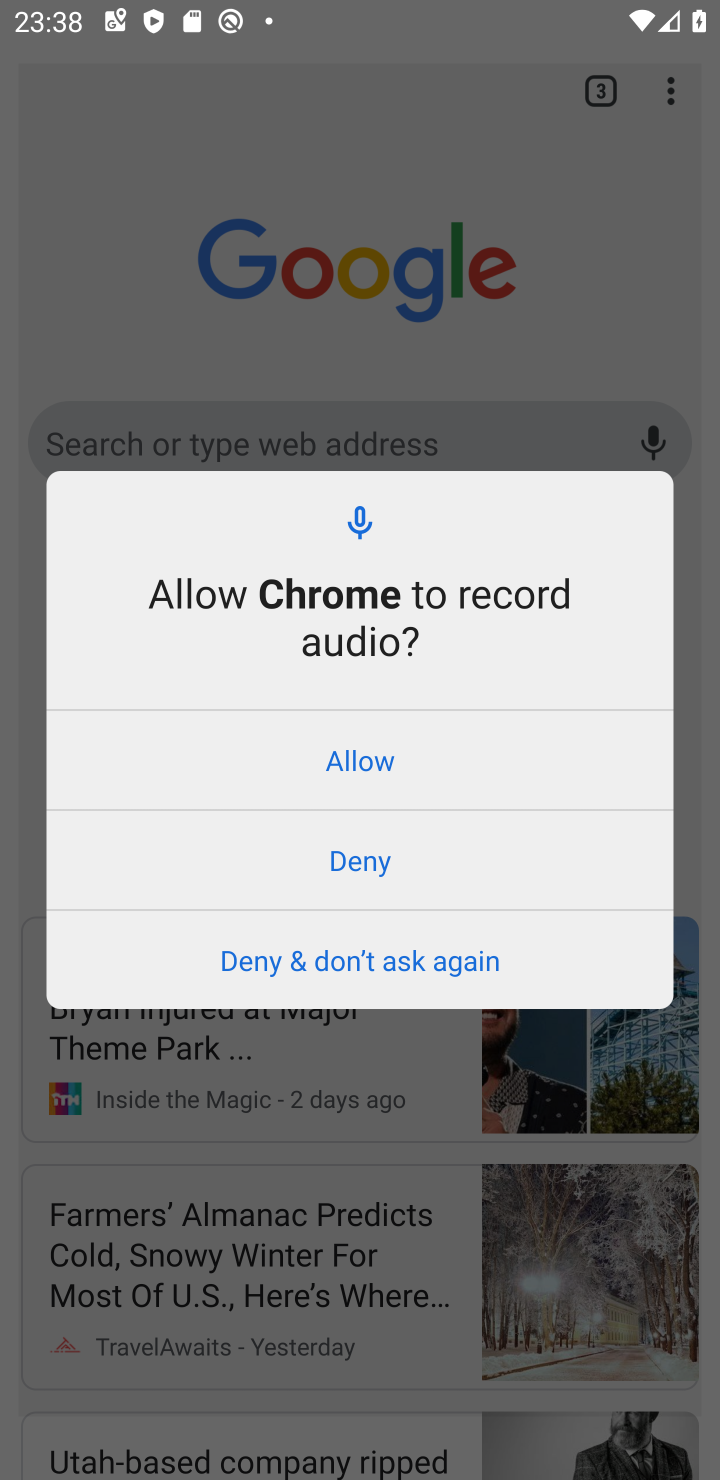
Step 32: click (365, 754)
Your task to perform on an android device: Open CNN.com Image 33: 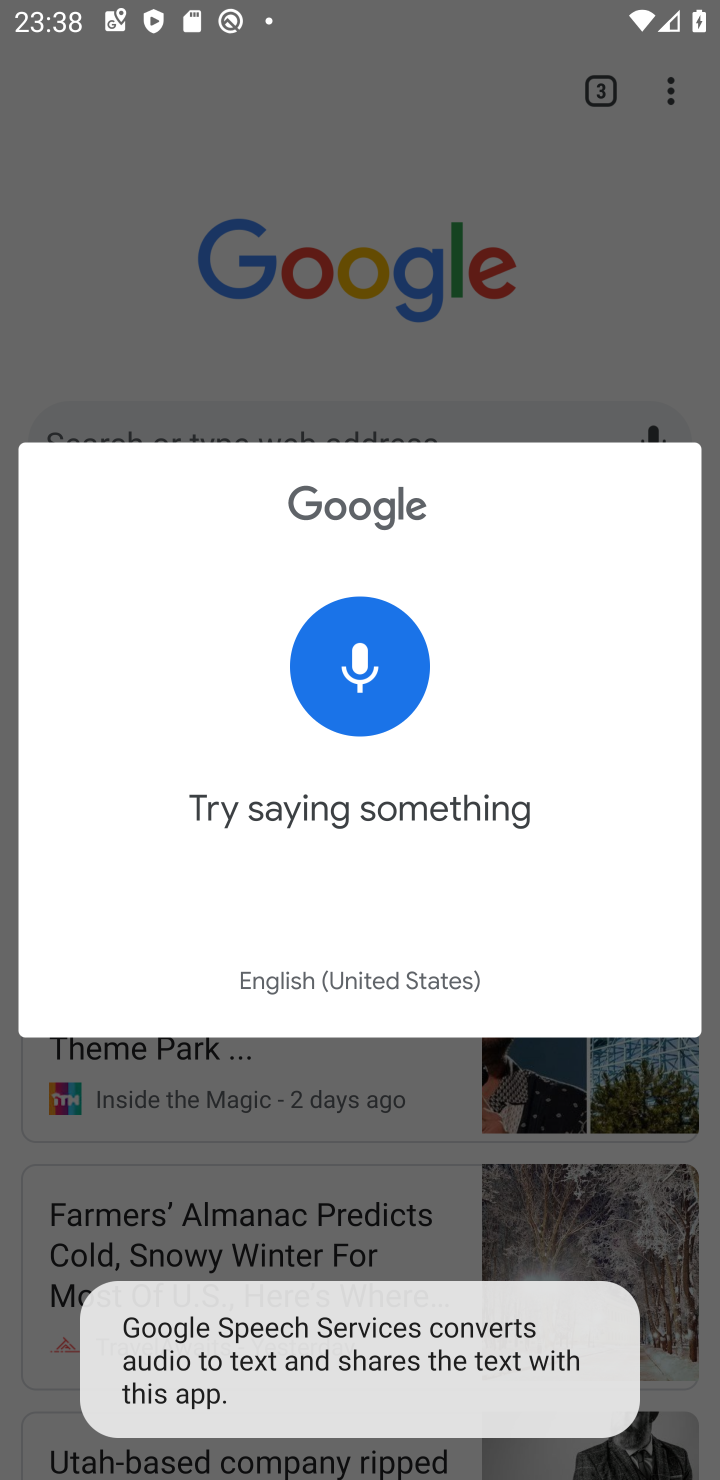
Step 33: click (302, 431)
Your task to perform on an android device: Open CNN.com Image 34: 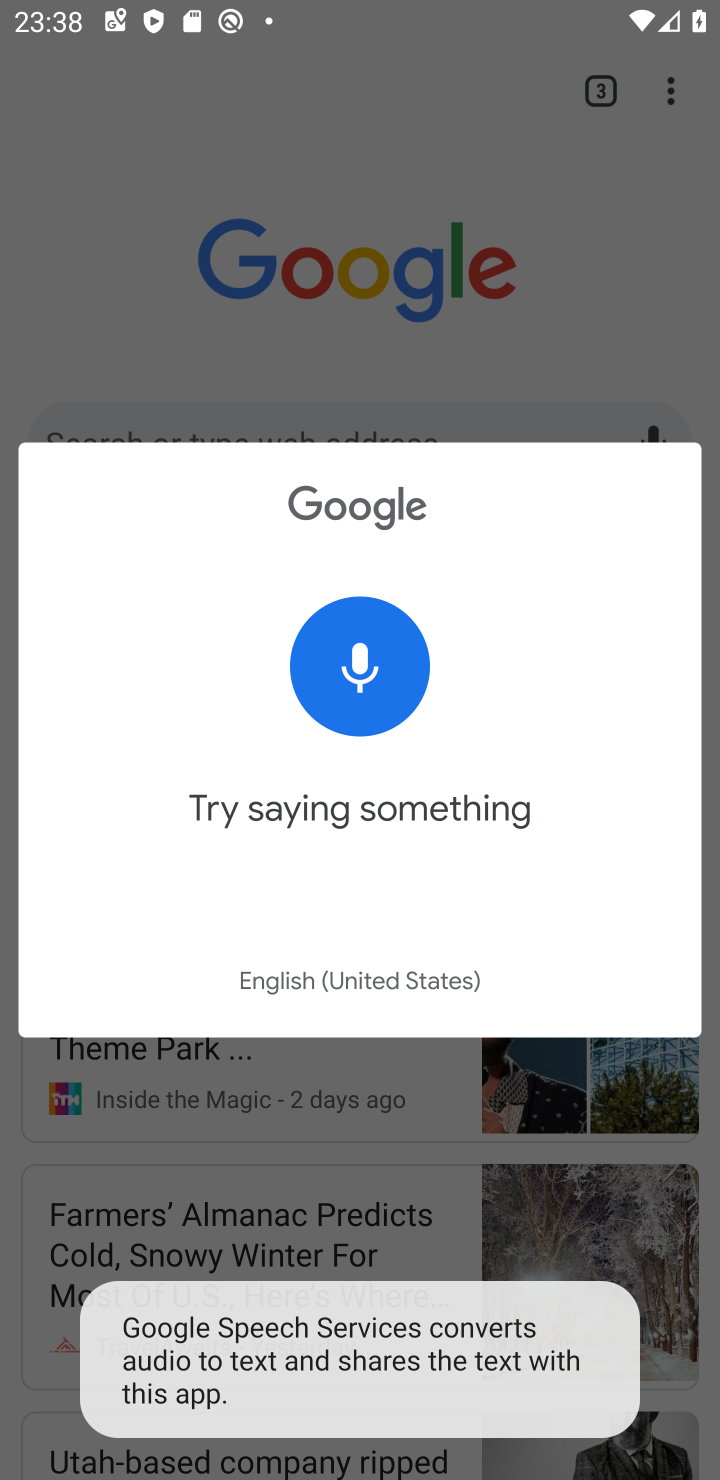
Step 34: click (461, 265)
Your task to perform on an android device: Open CNN.com Image 35: 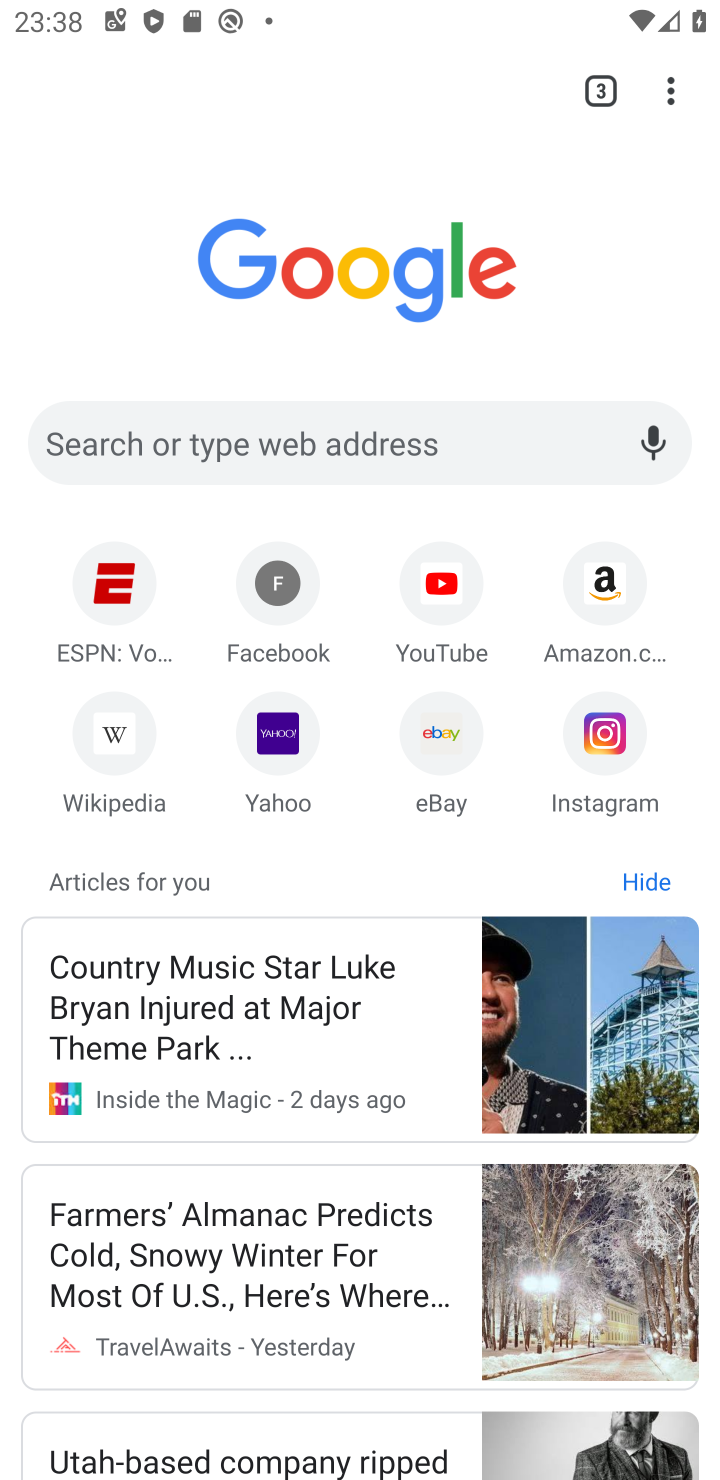
Step 35: click (252, 424)
Your task to perform on an android device: Open CNN.com Image 36: 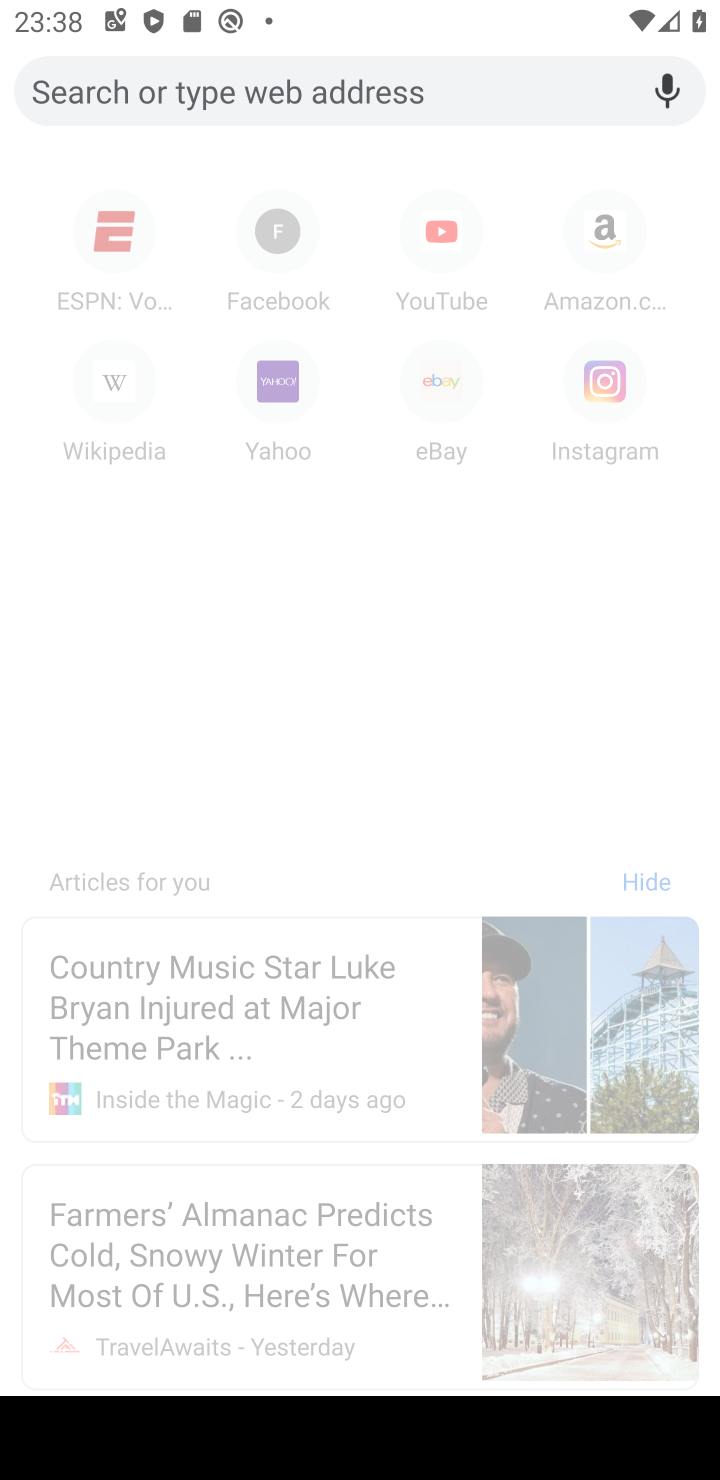
Step 36: type "cnn "
Your task to perform on an android device: Open CNN.com Image 37: 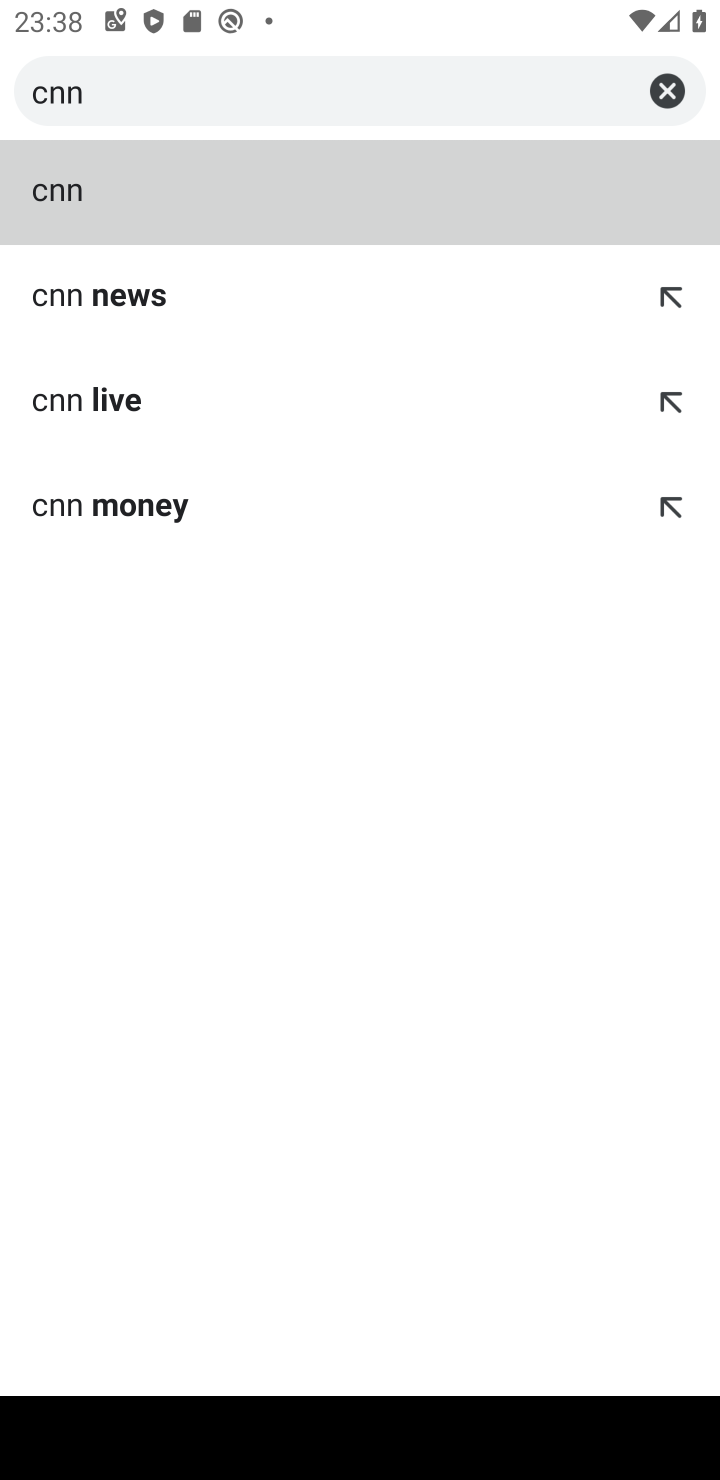
Step 37: click (152, 181)
Your task to perform on an android device: Open CNN.com Image 38: 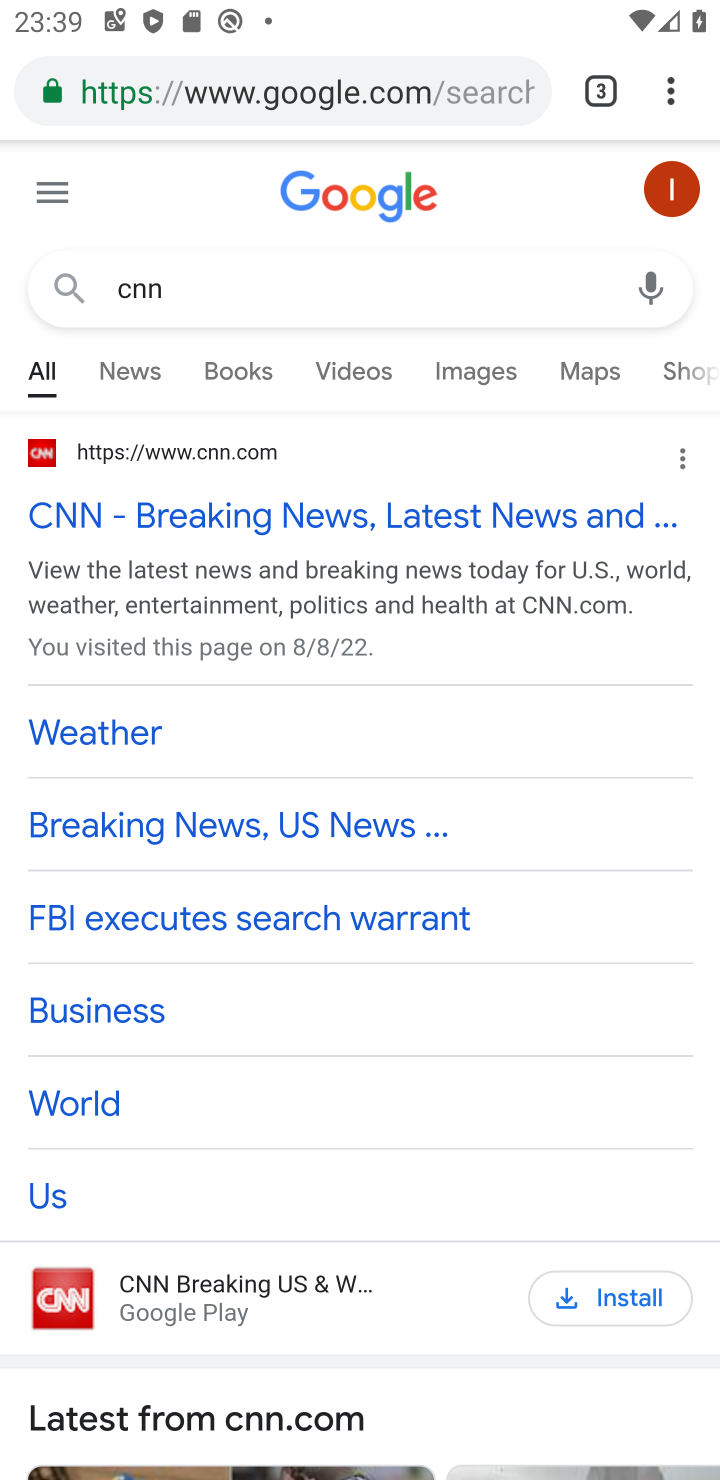
Step 38: click (294, 498)
Your task to perform on an android device: Open CNN.com Image 39: 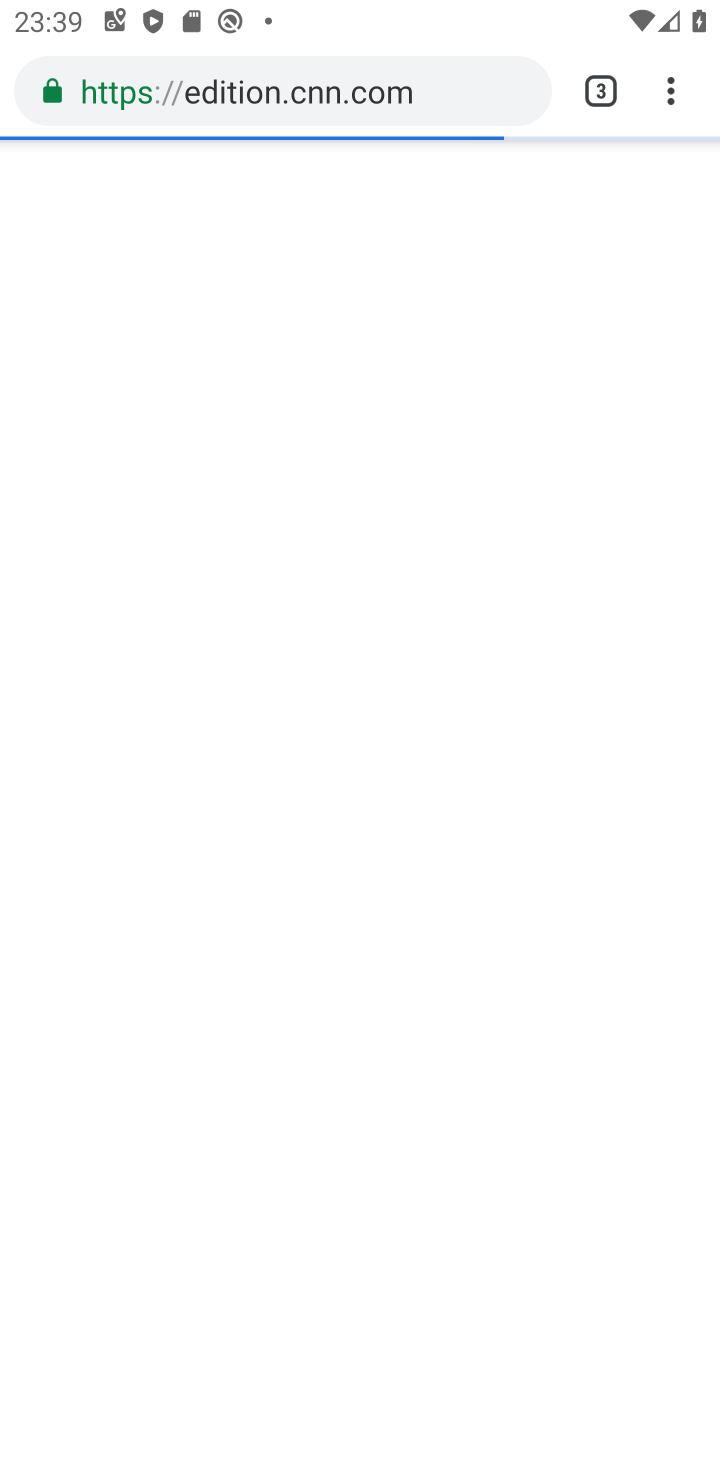
Step 39: task complete